Your task to perform on an android device: Search for "usb-c" on walmart.com, select the first entry, add it to the cart, then select checkout. Image 0: 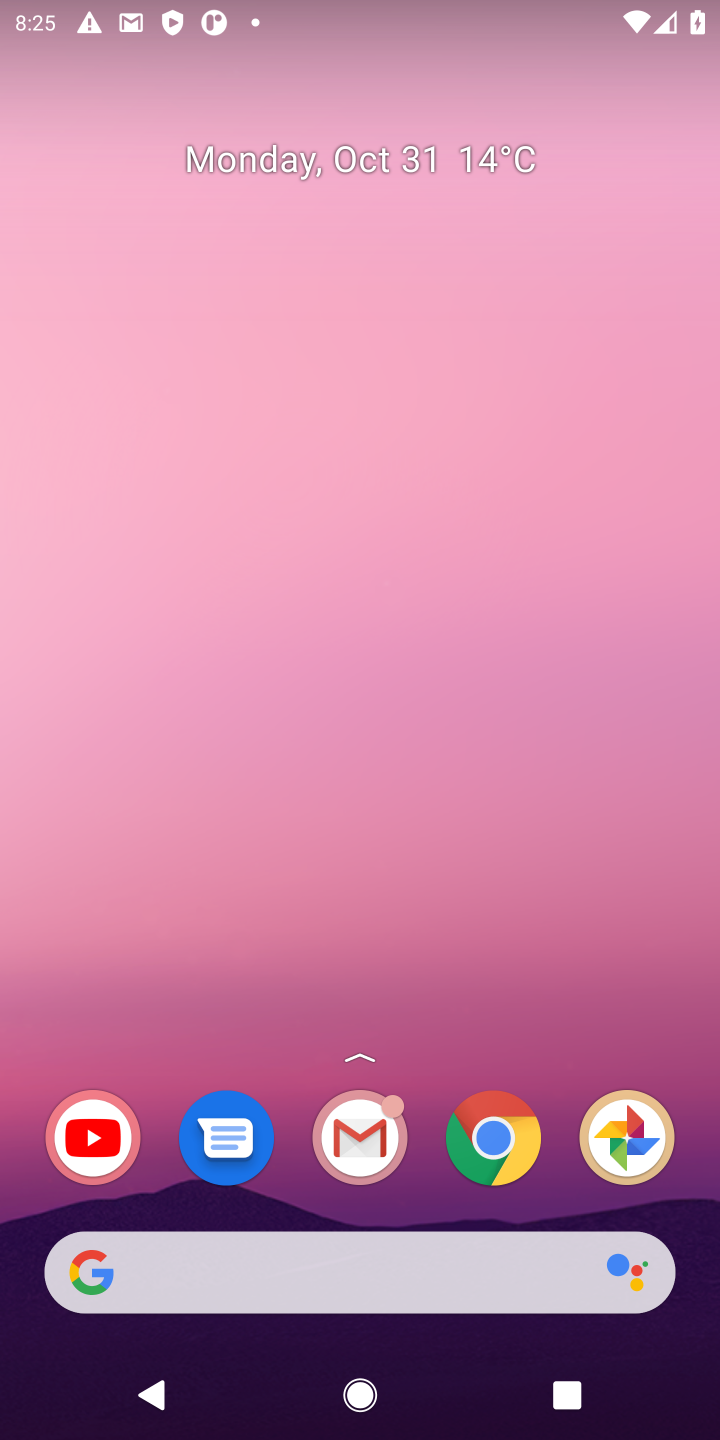
Step 0: press home button
Your task to perform on an android device: Search for "usb-c" on walmart.com, select the first entry, add it to the cart, then select checkout. Image 1: 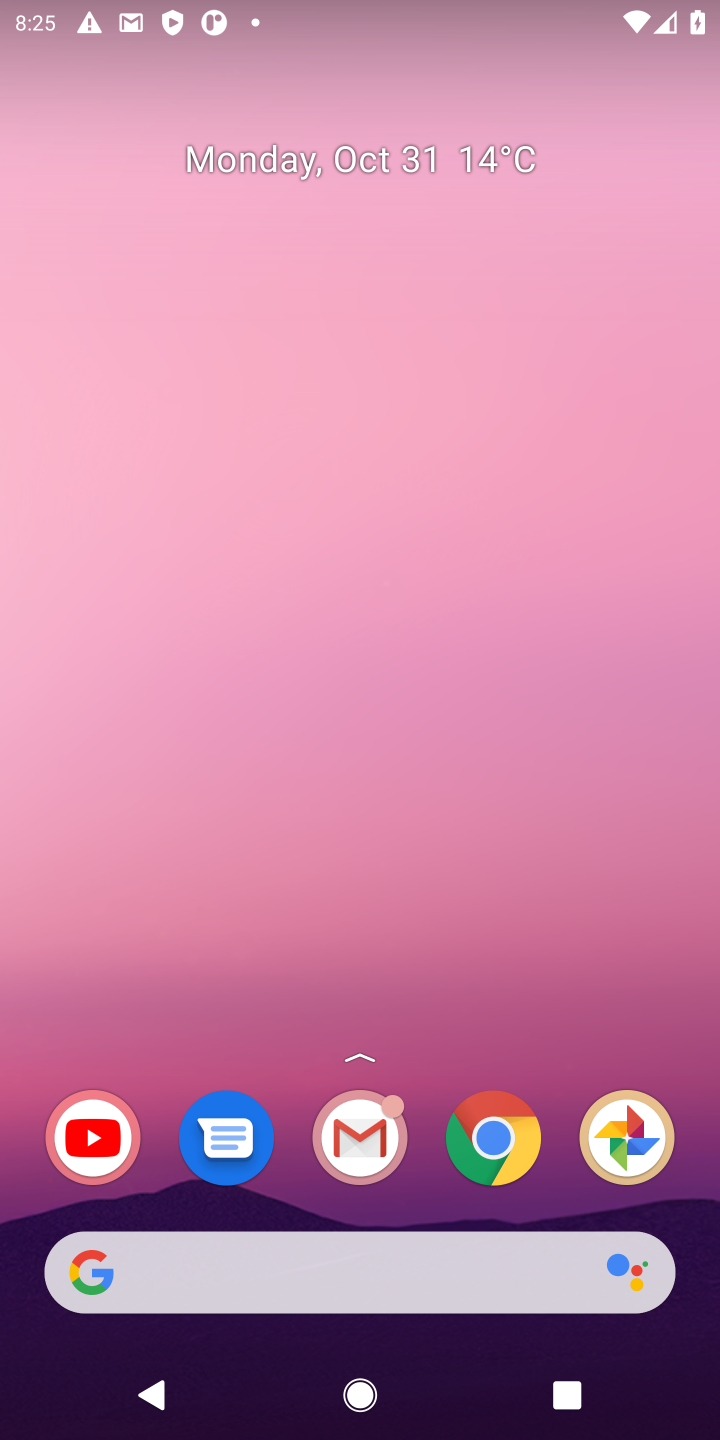
Step 1: click (473, 1096)
Your task to perform on an android device: Search for "usb-c" on walmart.com, select the first entry, add it to the cart, then select checkout. Image 2: 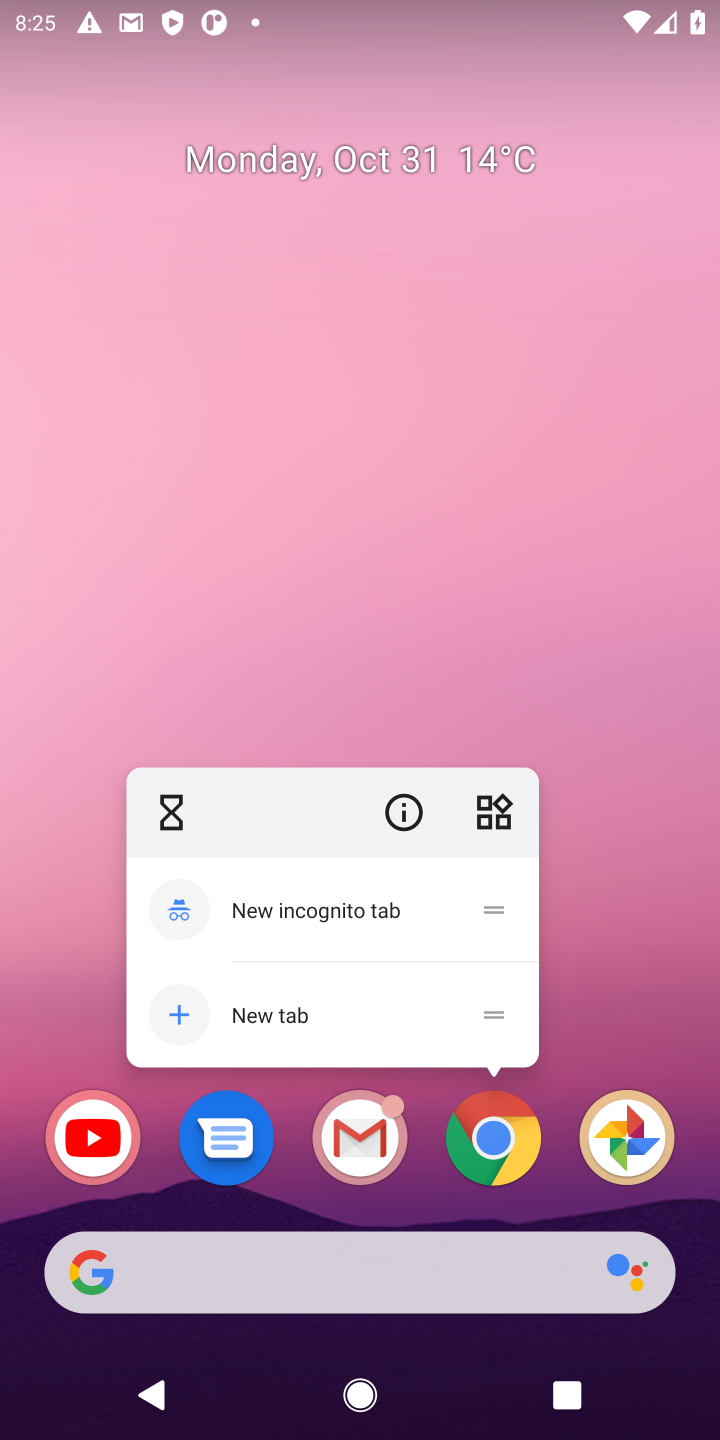
Step 2: click (502, 1129)
Your task to perform on an android device: Search for "usb-c" on walmart.com, select the first entry, add it to the cart, then select checkout. Image 3: 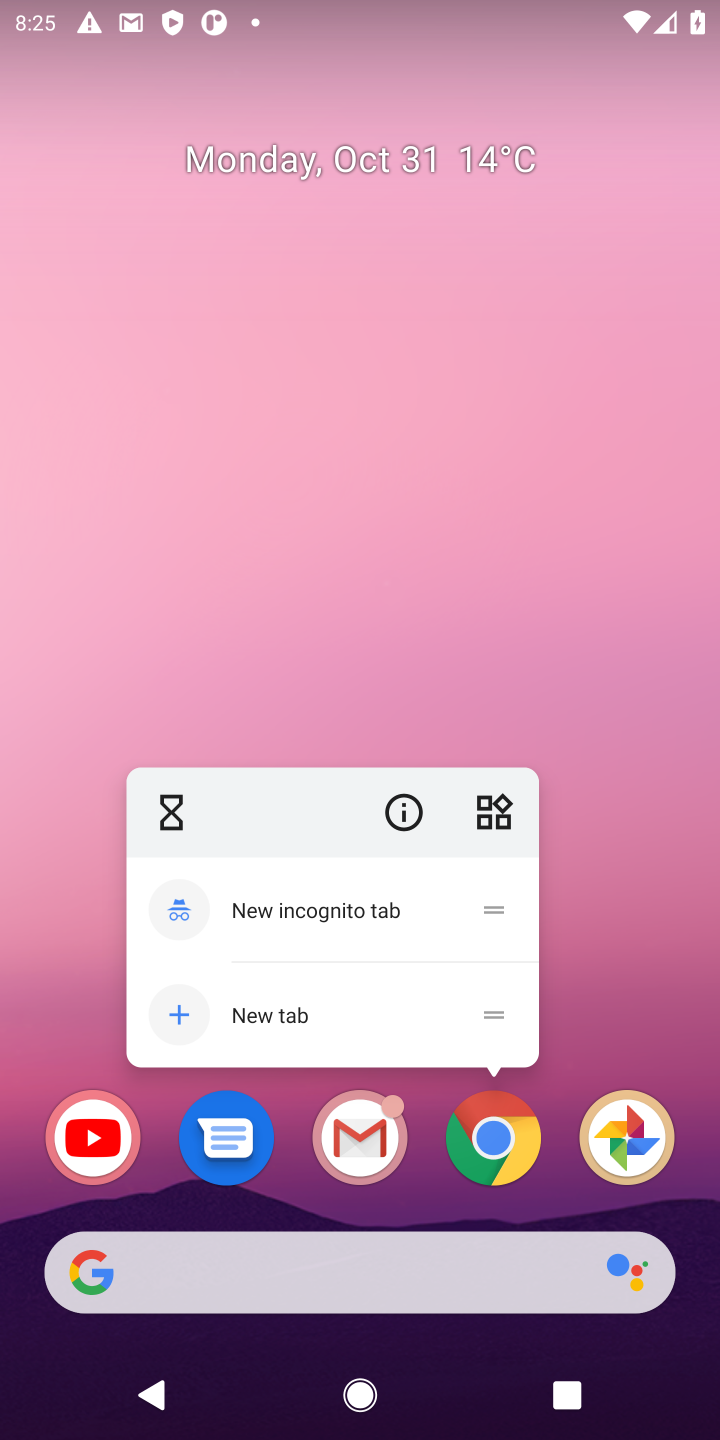
Step 3: click (491, 1170)
Your task to perform on an android device: Search for "usb-c" on walmart.com, select the first entry, add it to the cart, then select checkout. Image 4: 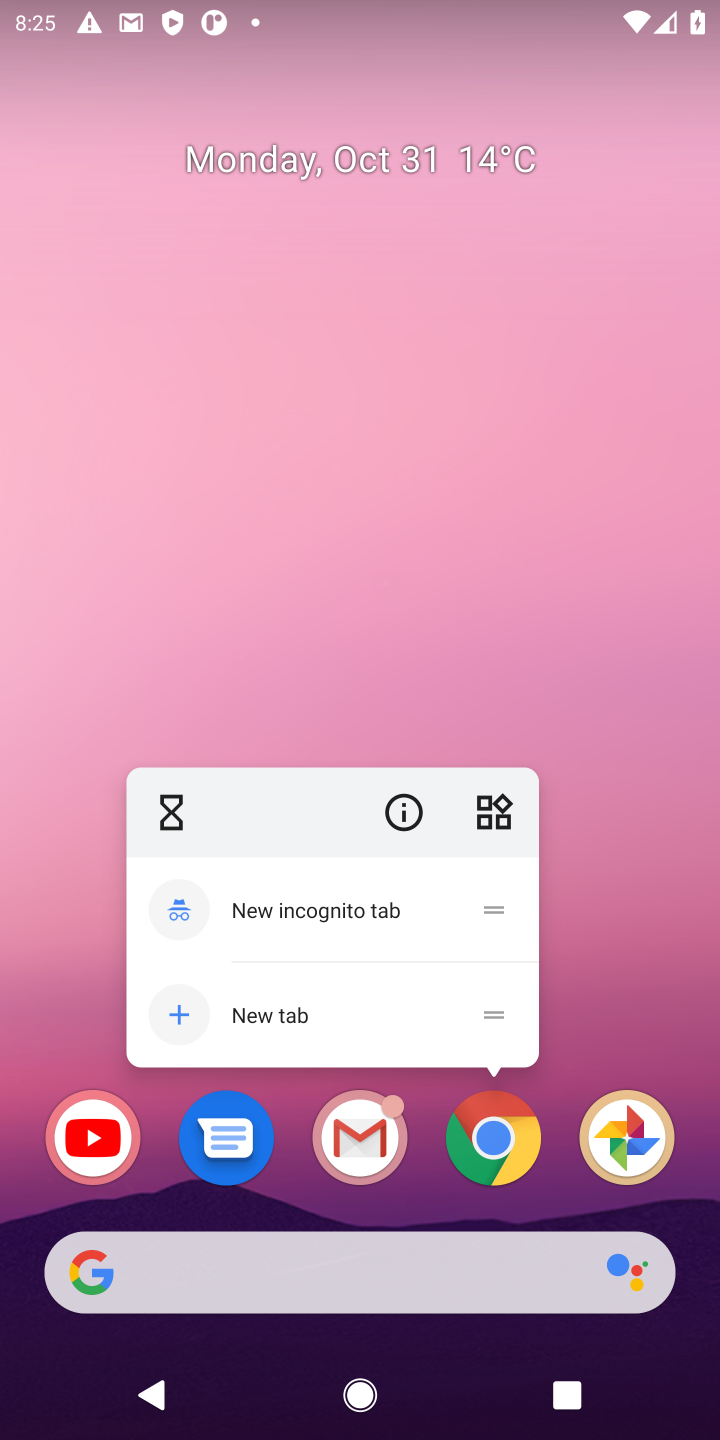
Step 4: click (512, 1139)
Your task to perform on an android device: Search for "usb-c" on walmart.com, select the first entry, add it to the cart, then select checkout. Image 5: 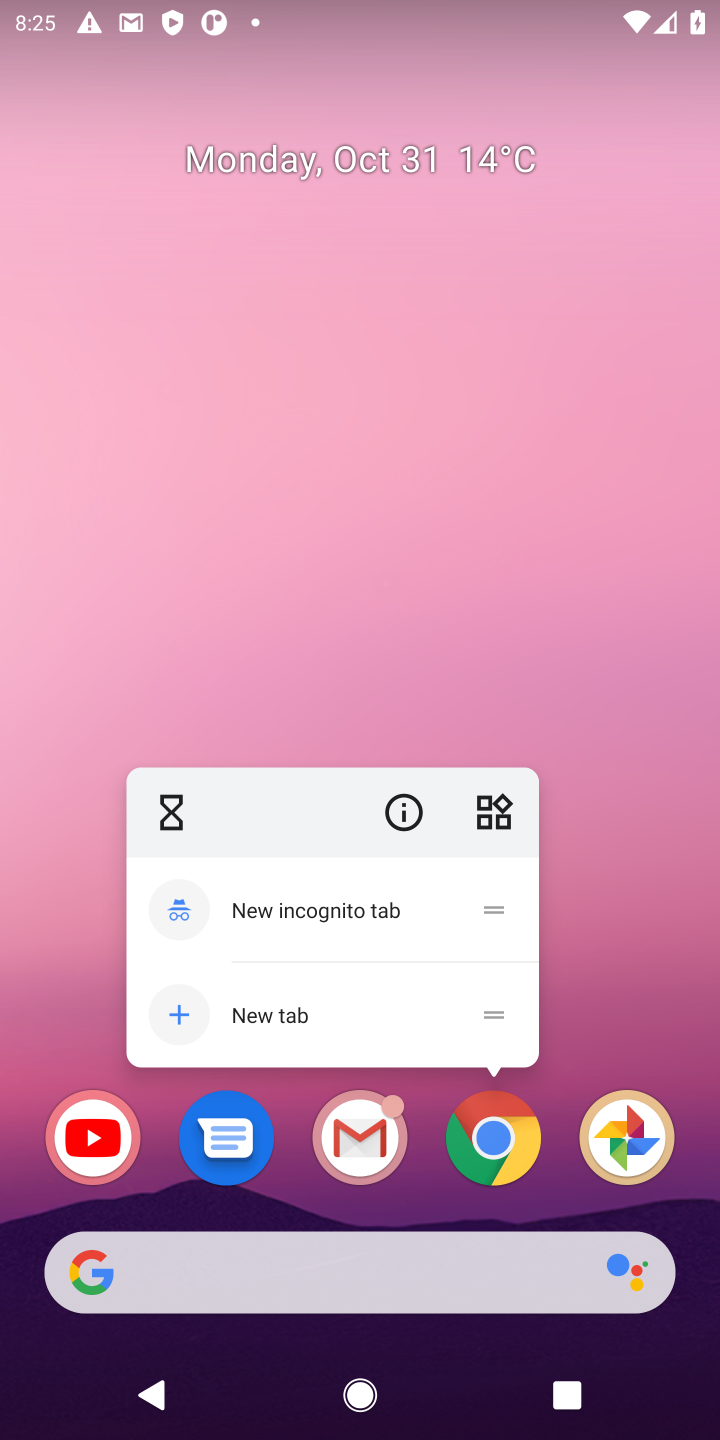
Step 5: click (510, 1135)
Your task to perform on an android device: Search for "usb-c" on walmart.com, select the first entry, add it to the cart, then select checkout. Image 6: 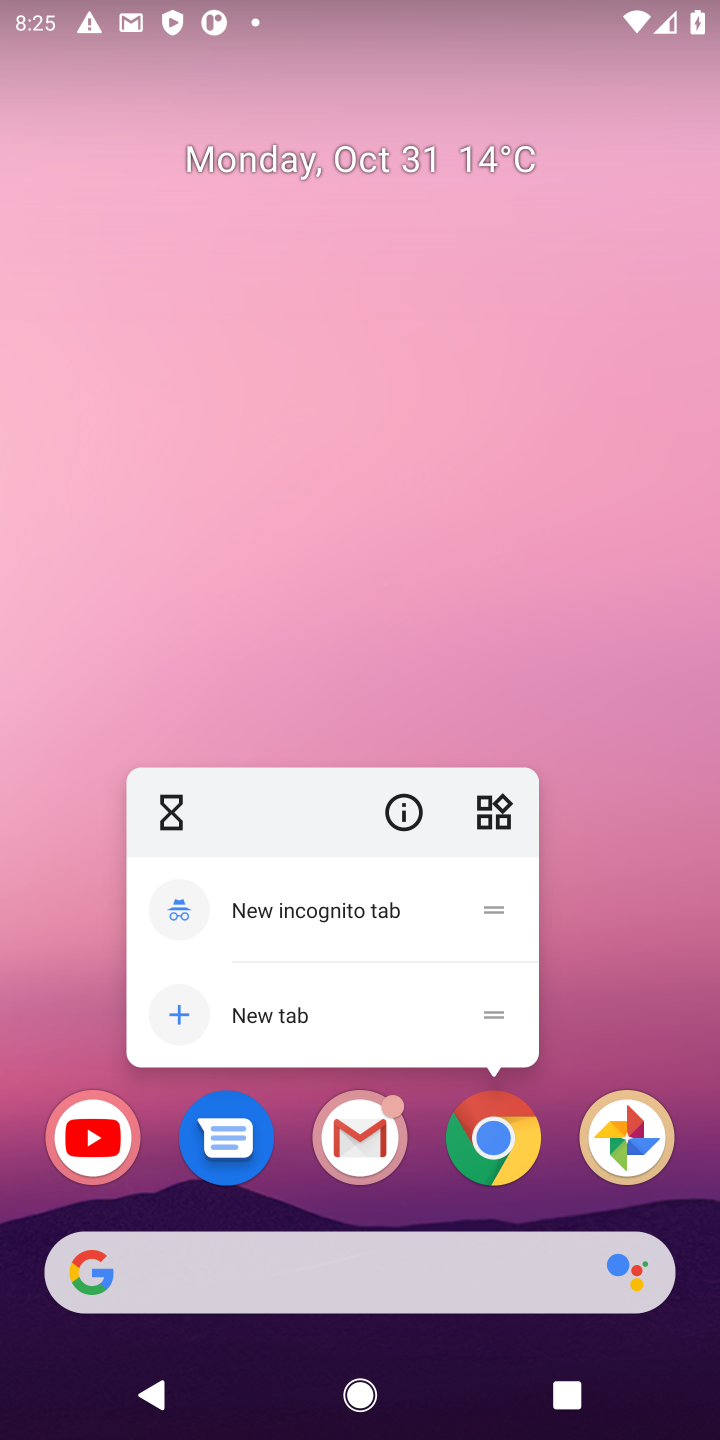
Step 6: click (509, 1130)
Your task to perform on an android device: Search for "usb-c" on walmart.com, select the first entry, add it to the cart, then select checkout. Image 7: 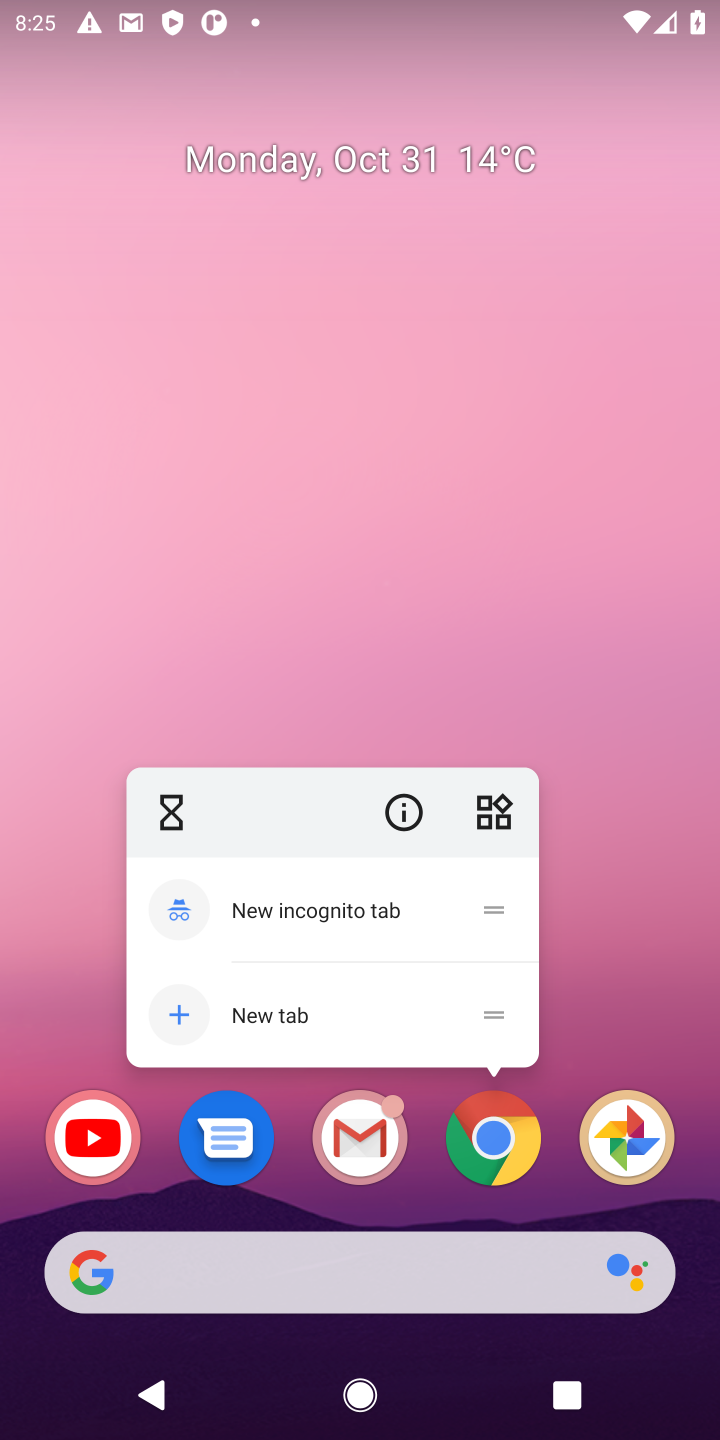
Step 7: press home button
Your task to perform on an android device: Search for "usb-c" on walmart.com, select the first entry, add it to the cart, then select checkout. Image 8: 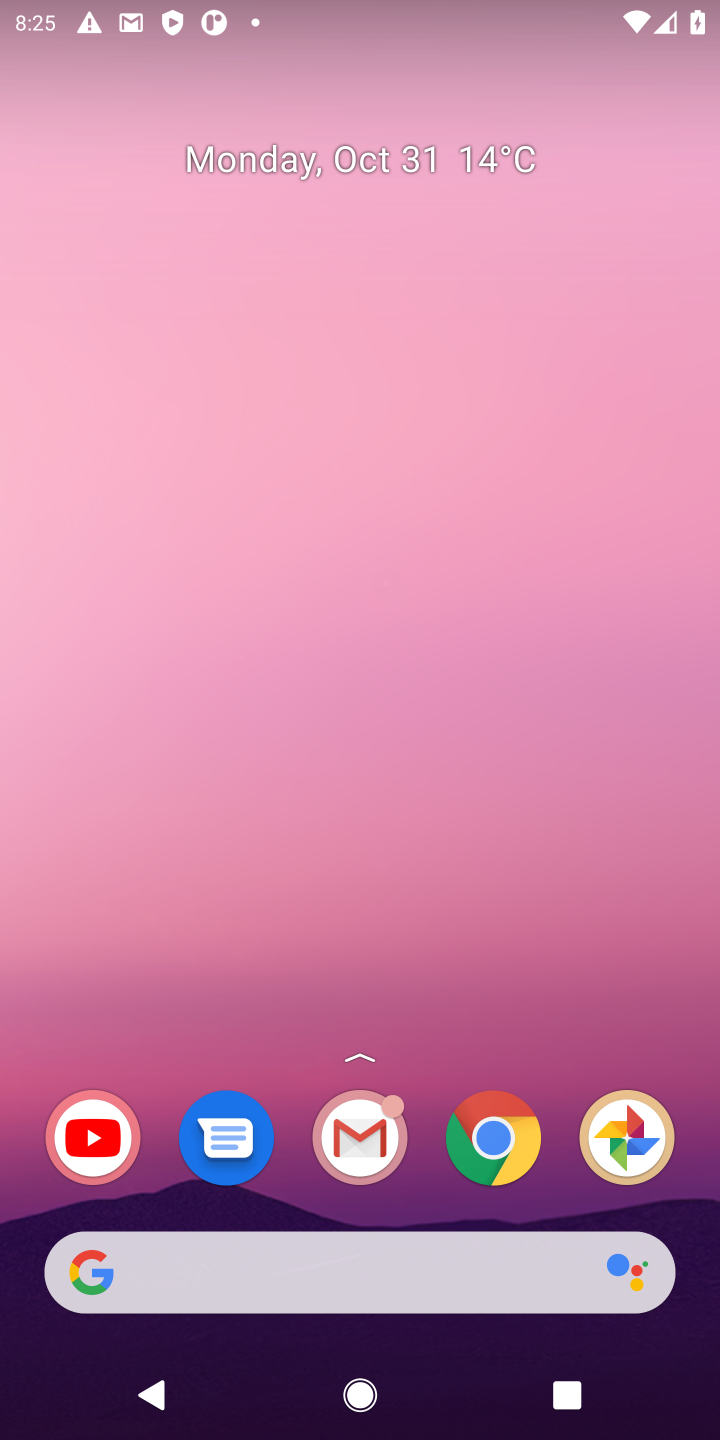
Step 8: press home button
Your task to perform on an android device: Search for "usb-c" on walmart.com, select the first entry, add it to the cart, then select checkout. Image 9: 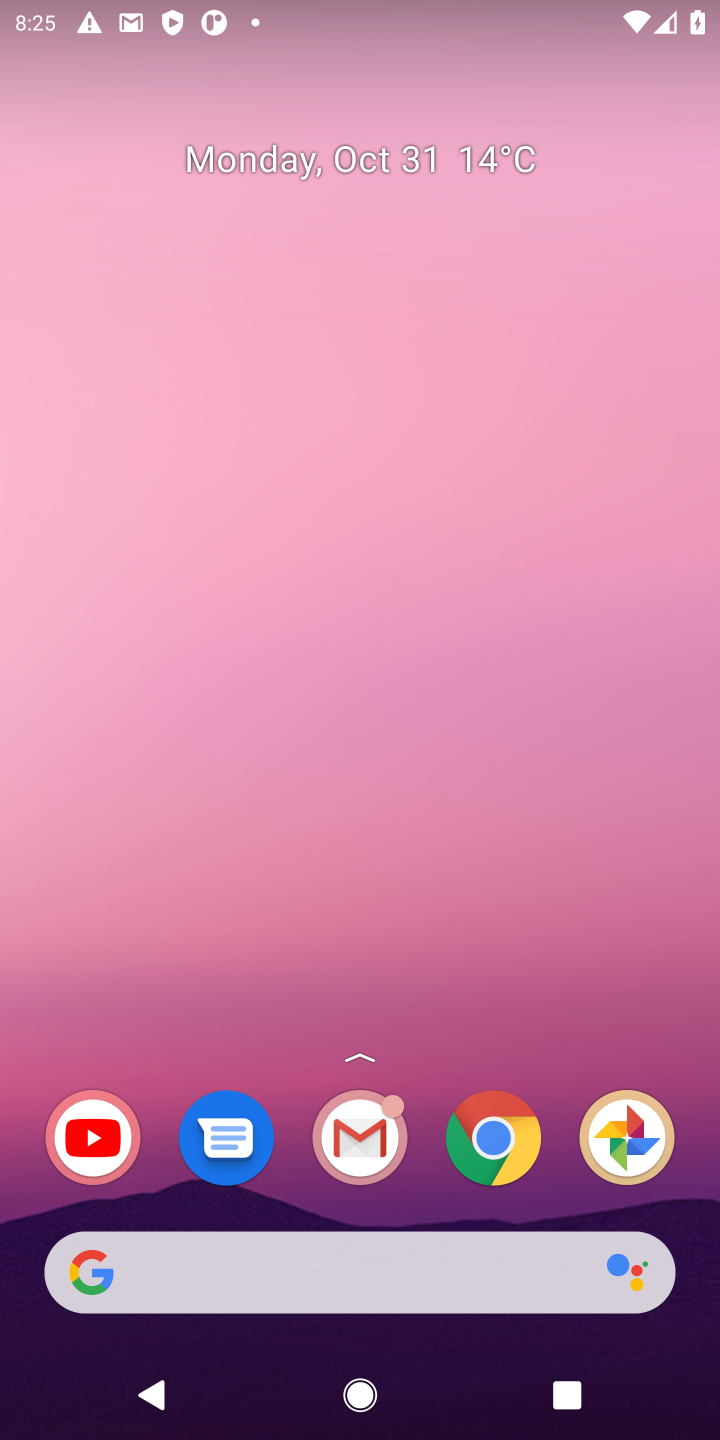
Step 9: press back button
Your task to perform on an android device: Search for "usb-c" on walmart.com, select the first entry, add it to the cart, then select checkout. Image 10: 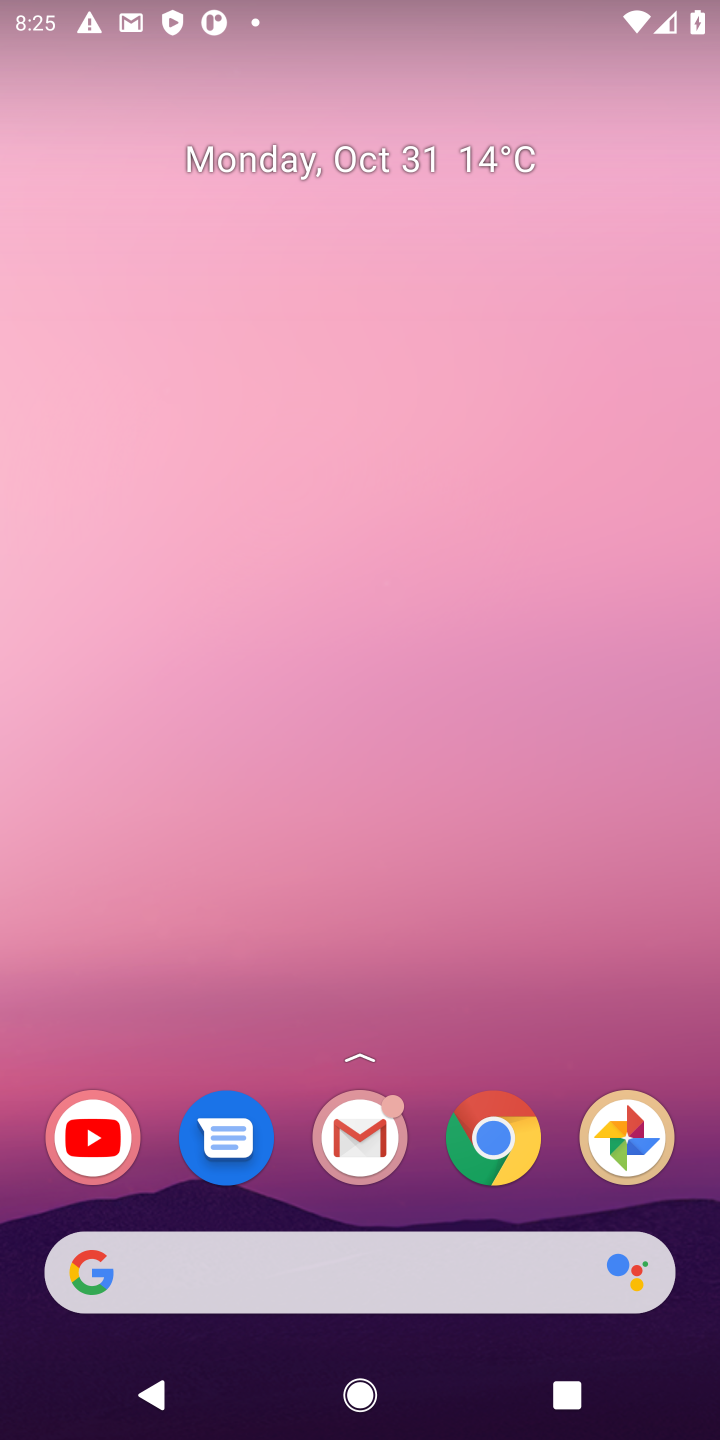
Step 10: press home button
Your task to perform on an android device: Search for "usb-c" on walmart.com, select the first entry, add it to the cart, then select checkout. Image 11: 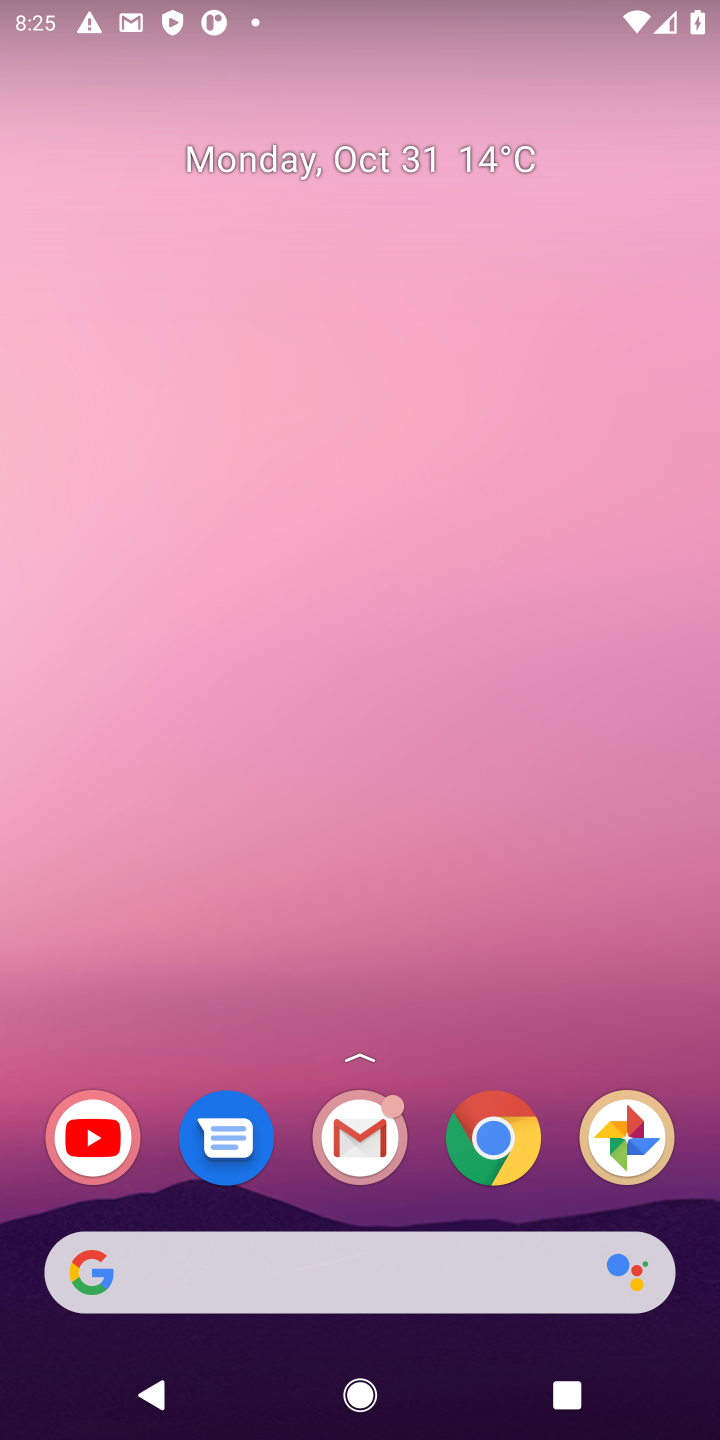
Step 11: click (494, 1128)
Your task to perform on an android device: Search for "usb-c" on walmart.com, select the first entry, add it to the cart, then select checkout. Image 12: 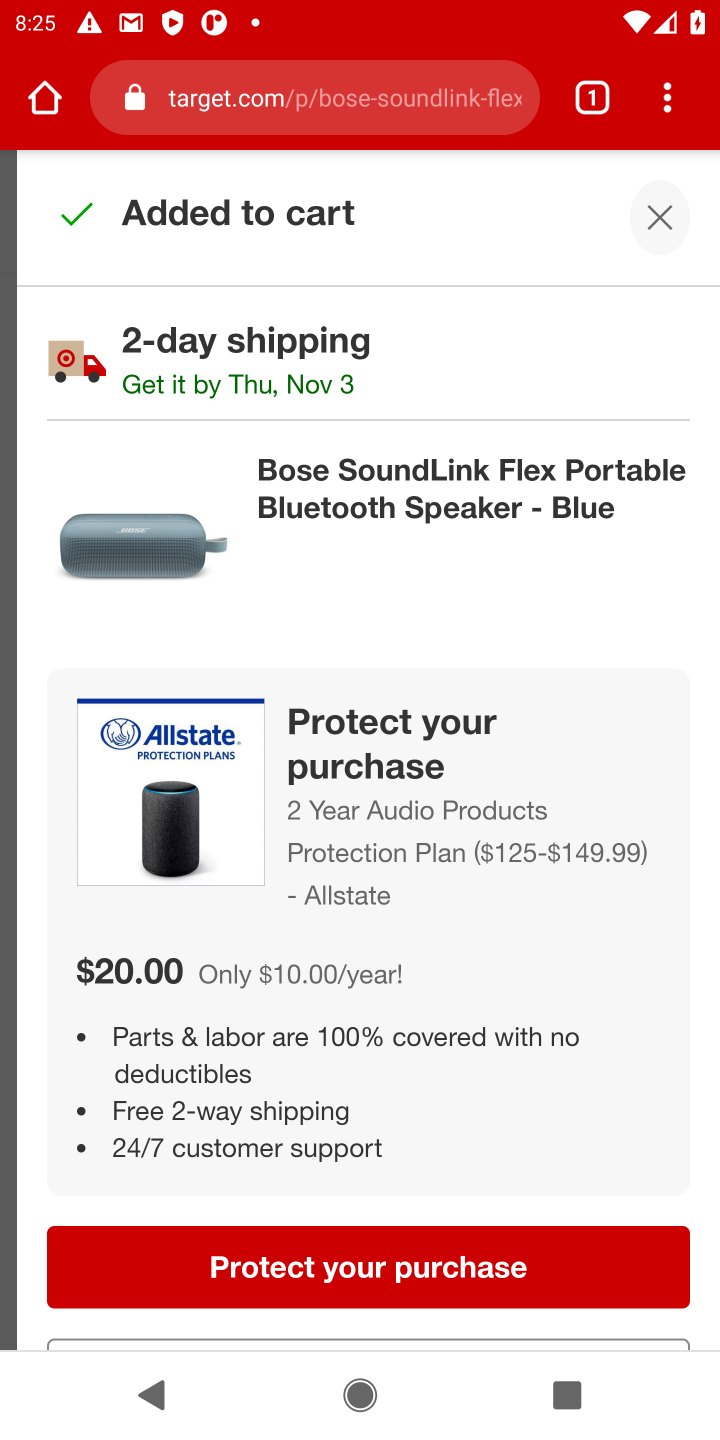
Step 12: click (255, 104)
Your task to perform on an android device: Search for "usb-c" on walmart.com, select the first entry, add it to the cart, then select checkout. Image 13: 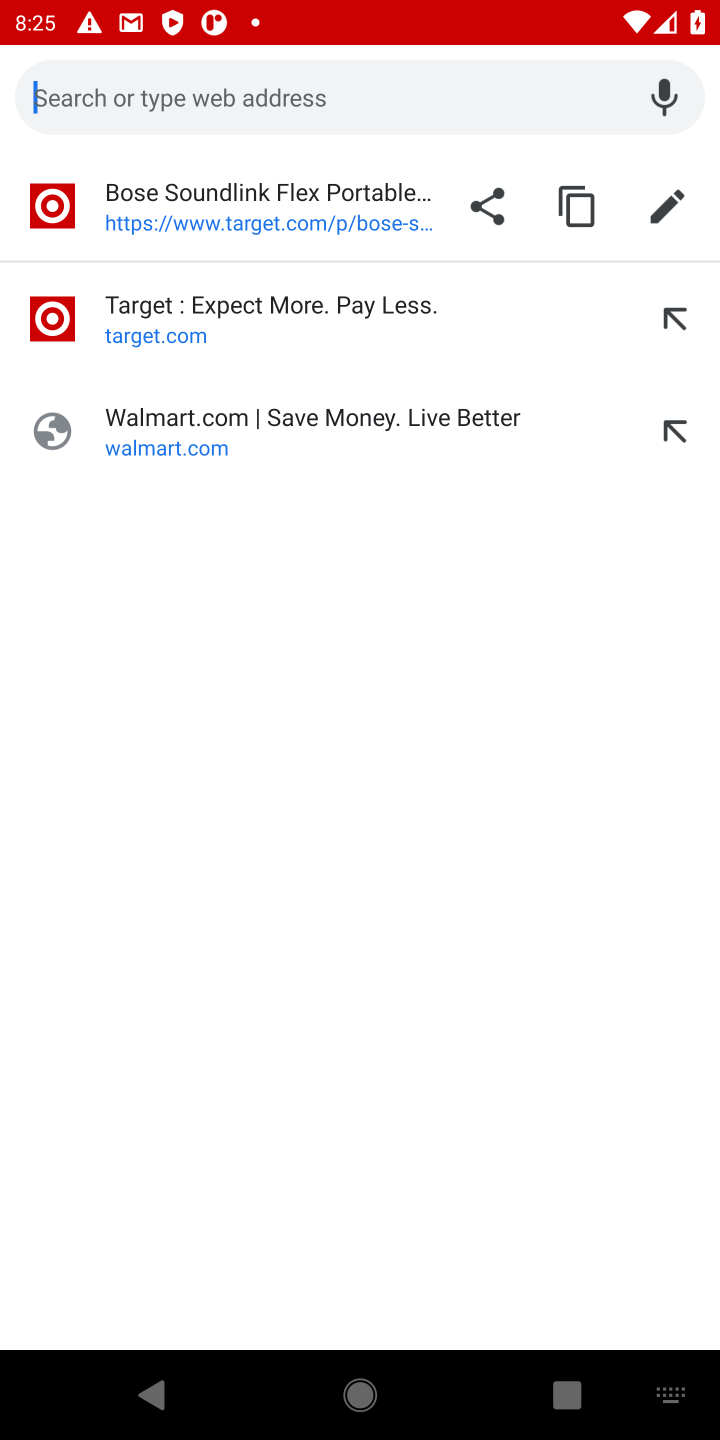
Step 13: type "walmart.com"
Your task to perform on an android device: Search for "usb-c" on walmart.com, select the first entry, add it to the cart, then select checkout. Image 14: 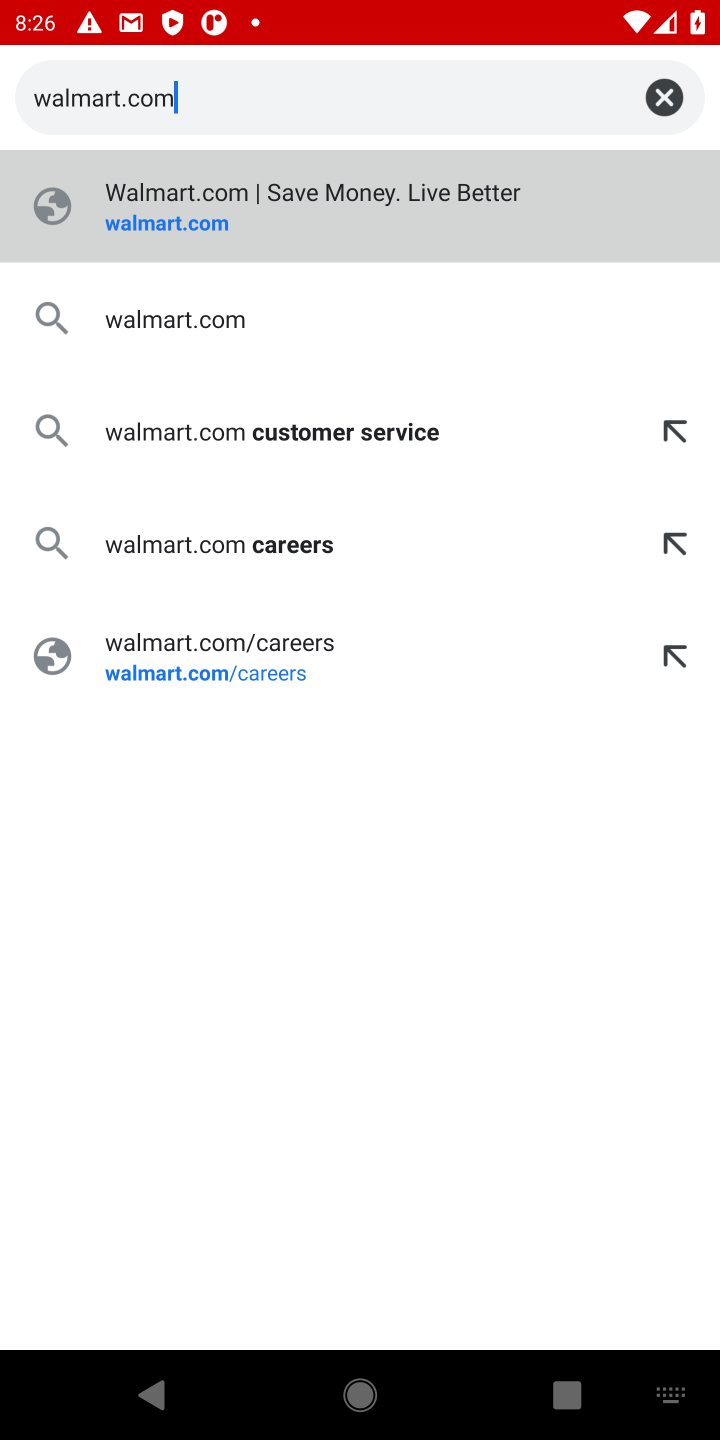
Step 14: click (197, 327)
Your task to perform on an android device: Search for "usb-c" on walmart.com, select the first entry, add it to the cart, then select checkout. Image 15: 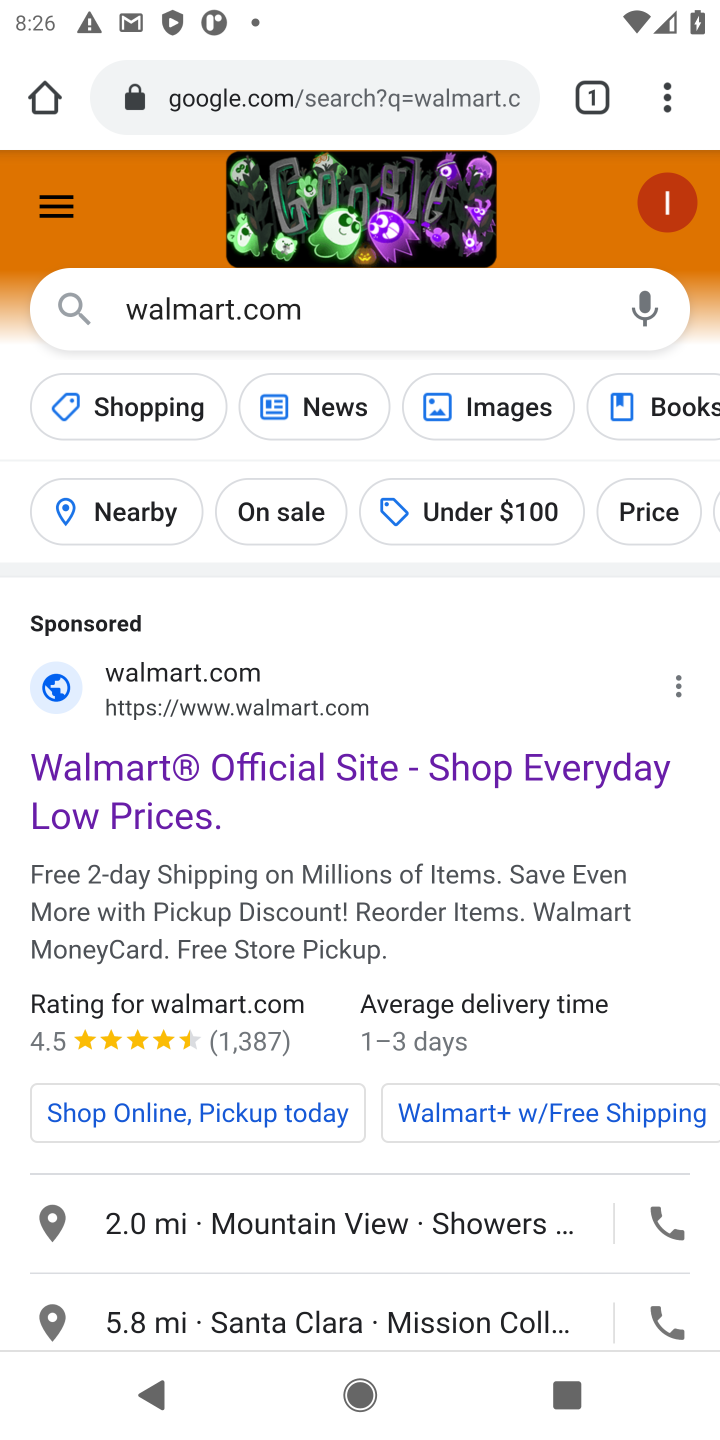
Step 15: drag from (169, 928) to (227, 683)
Your task to perform on an android device: Search for "usb-c" on walmart.com, select the first entry, add it to the cart, then select checkout. Image 16: 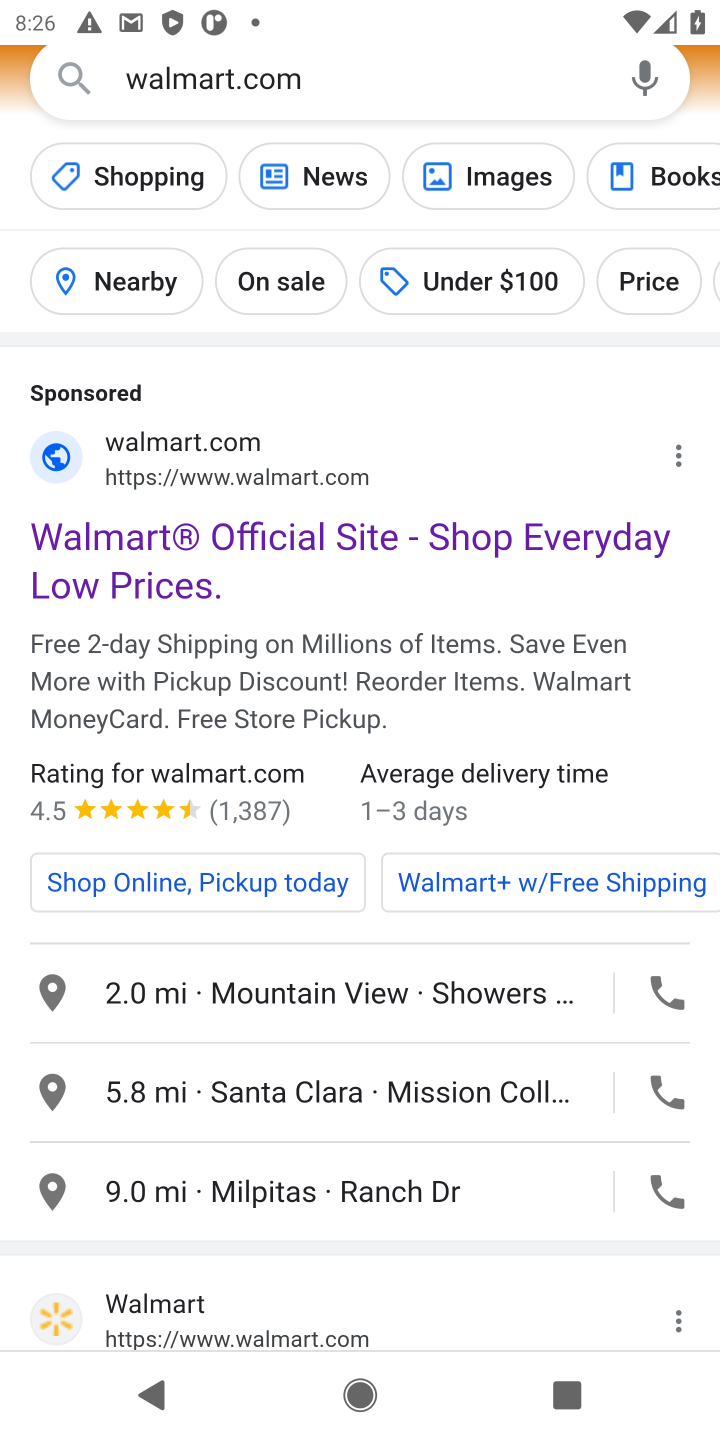
Step 16: click (297, 533)
Your task to perform on an android device: Search for "usb-c" on walmart.com, select the first entry, add it to the cart, then select checkout. Image 17: 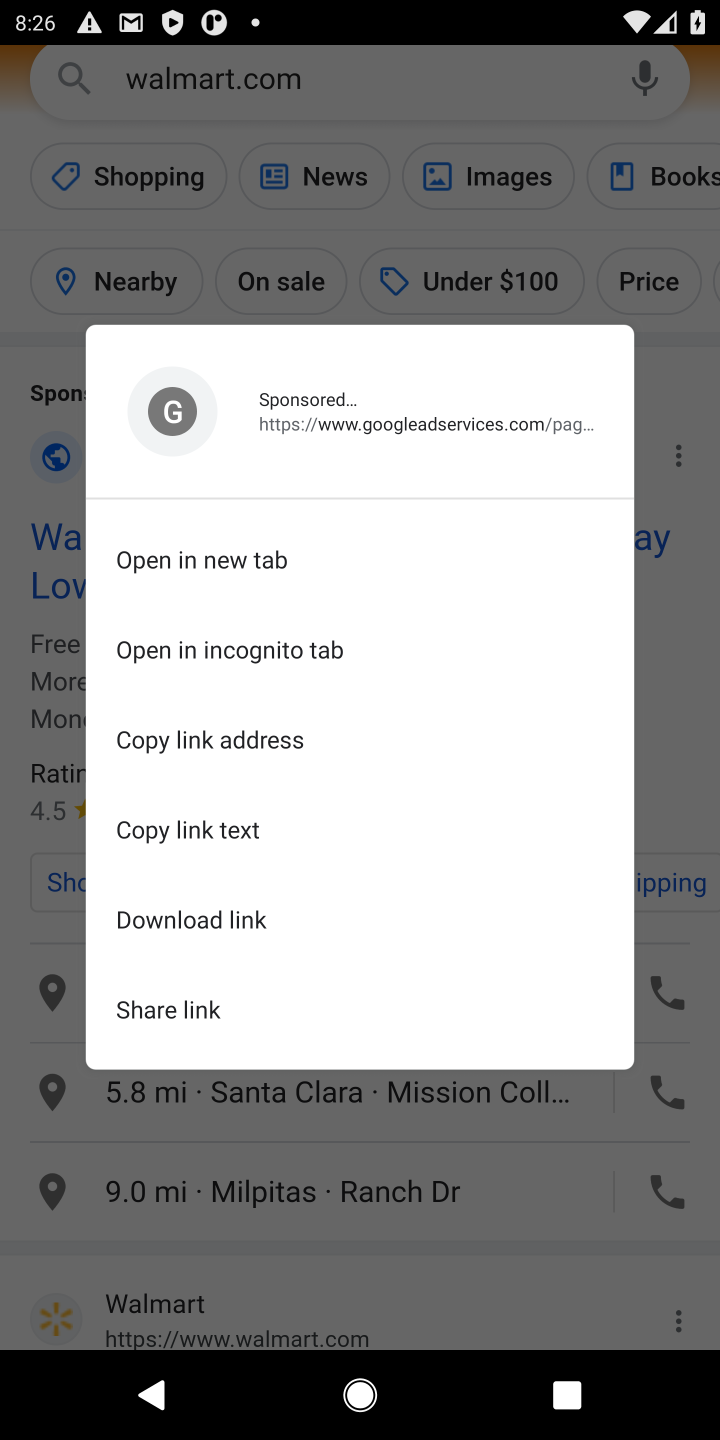
Step 17: drag from (29, 941) to (45, 547)
Your task to perform on an android device: Search for "usb-c" on walmart.com, select the first entry, add it to the cart, then select checkout. Image 18: 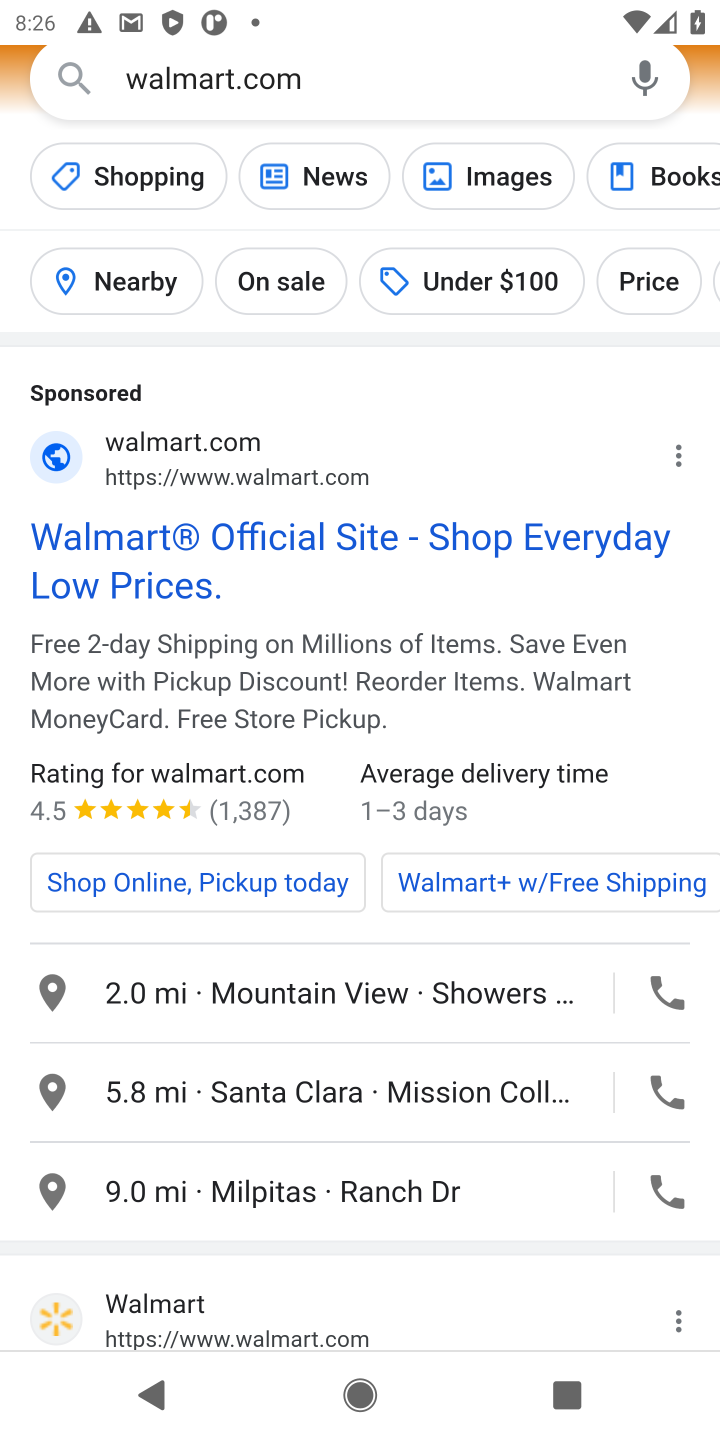
Step 18: drag from (111, 971) to (212, 393)
Your task to perform on an android device: Search for "usb-c" on walmart.com, select the first entry, add it to the cart, then select checkout. Image 19: 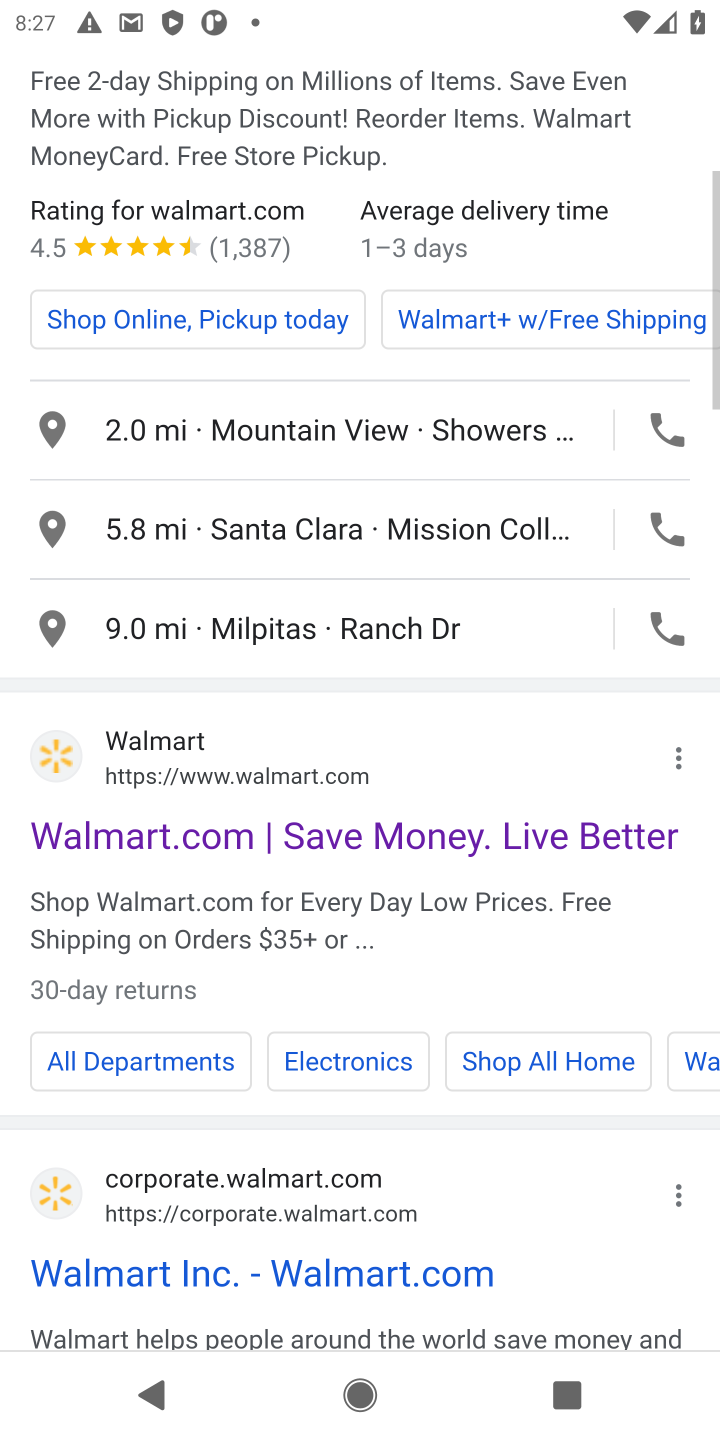
Step 19: drag from (171, 1131) to (201, 612)
Your task to perform on an android device: Search for "usb-c" on walmart.com, select the first entry, add it to the cart, then select checkout. Image 20: 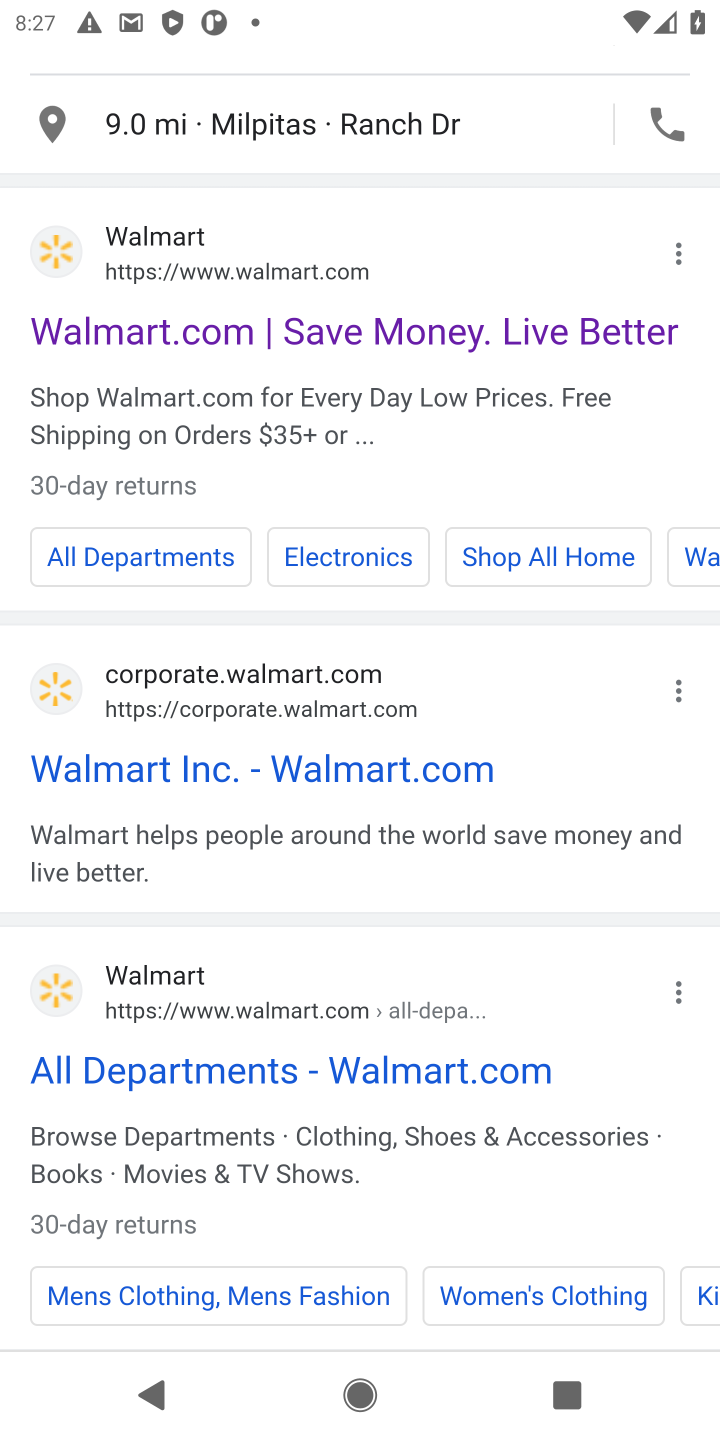
Step 20: click (134, 341)
Your task to perform on an android device: Search for "usb-c" on walmart.com, select the first entry, add it to the cart, then select checkout. Image 21: 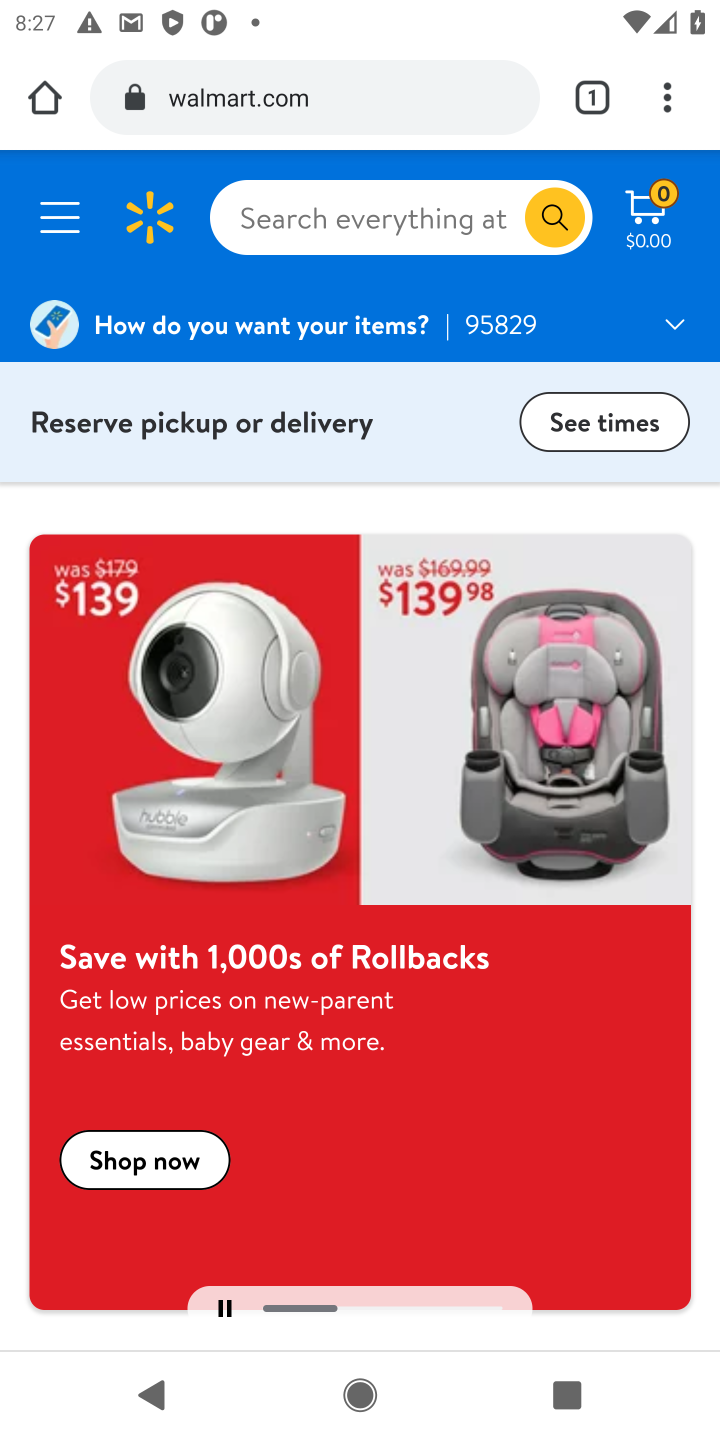
Step 21: click (298, 223)
Your task to perform on an android device: Search for "usb-c" on walmart.com, select the first entry, add it to the cart, then select checkout. Image 22: 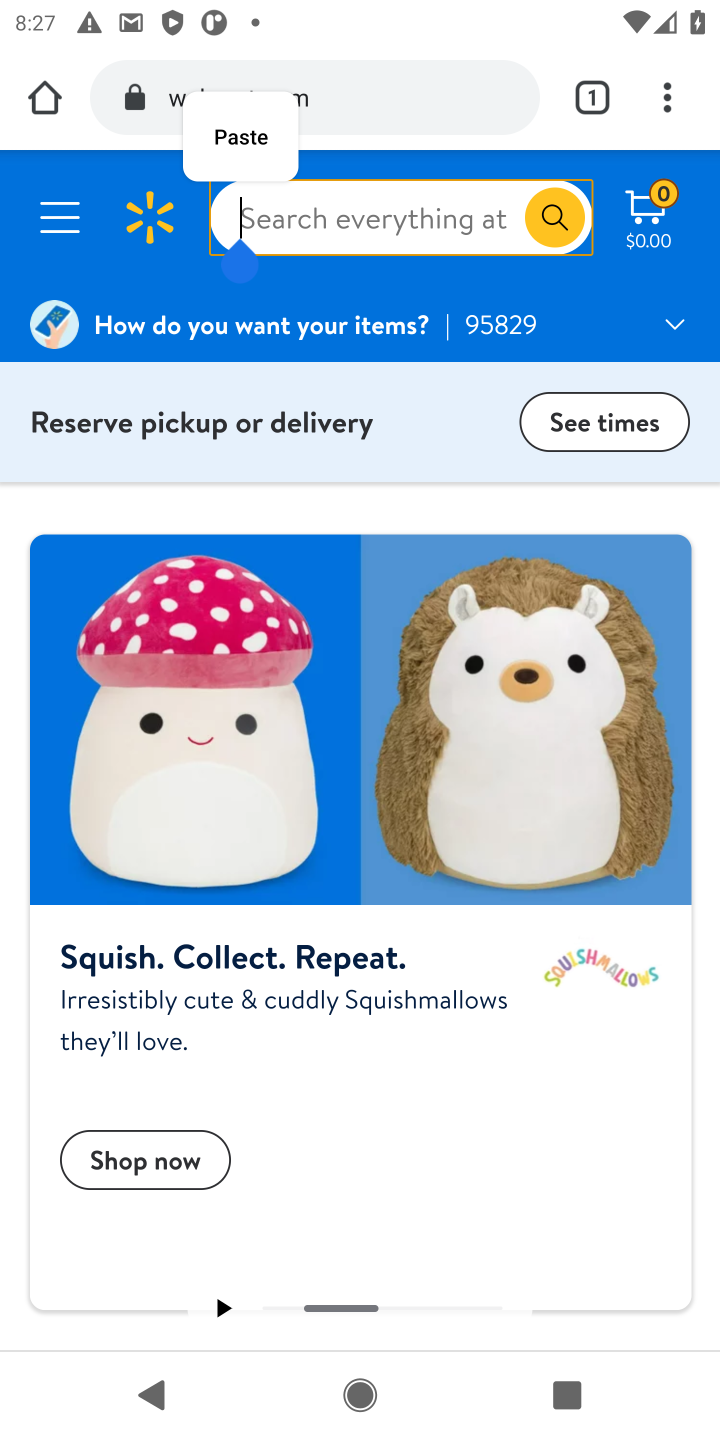
Step 22: type "usb-c"
Your task to perform on an android device: Search for "usb-c" on walmart.com, select the first entry, add it to the cart, then select checkout. Image 23: 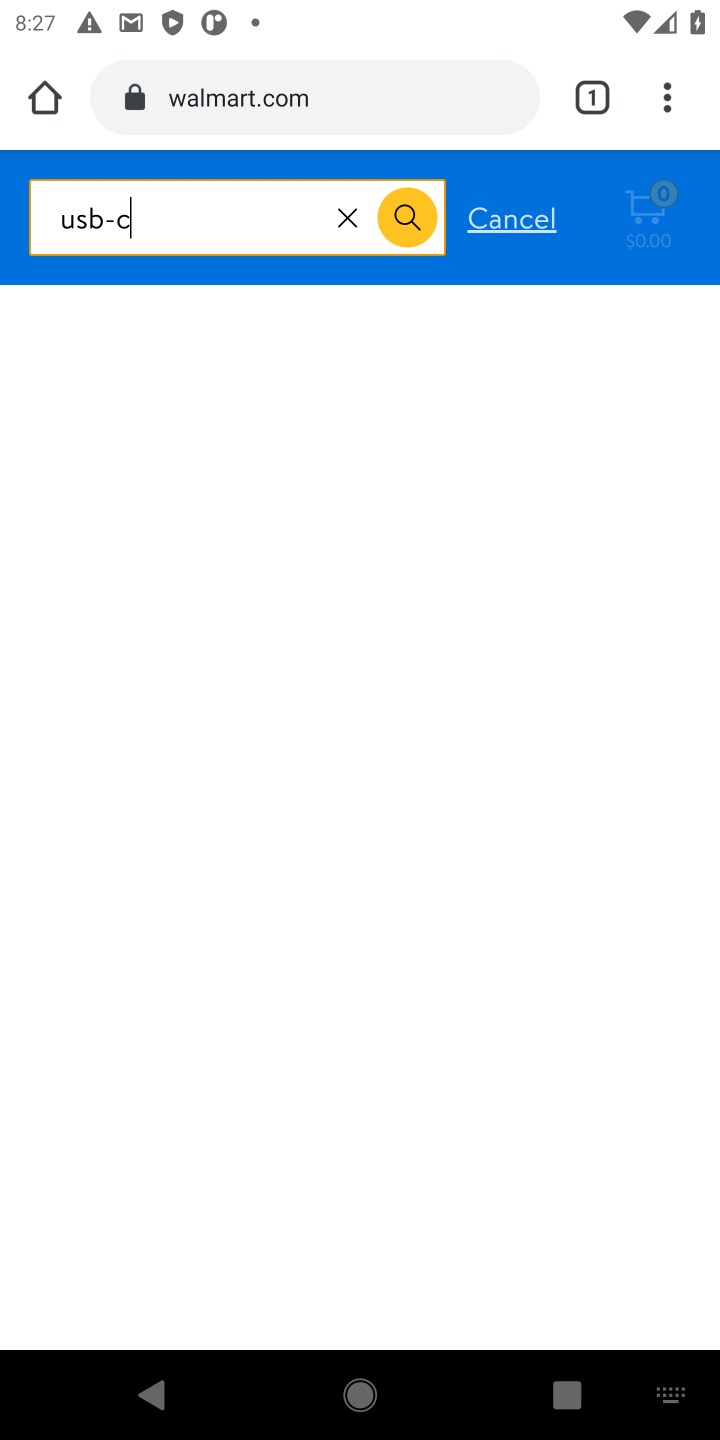
Step 23: type ""
Your task to perform on an android device: Search for "usb-c" on walmart.com, select the first entry, add it to the cart, then select checkout. Image 24: 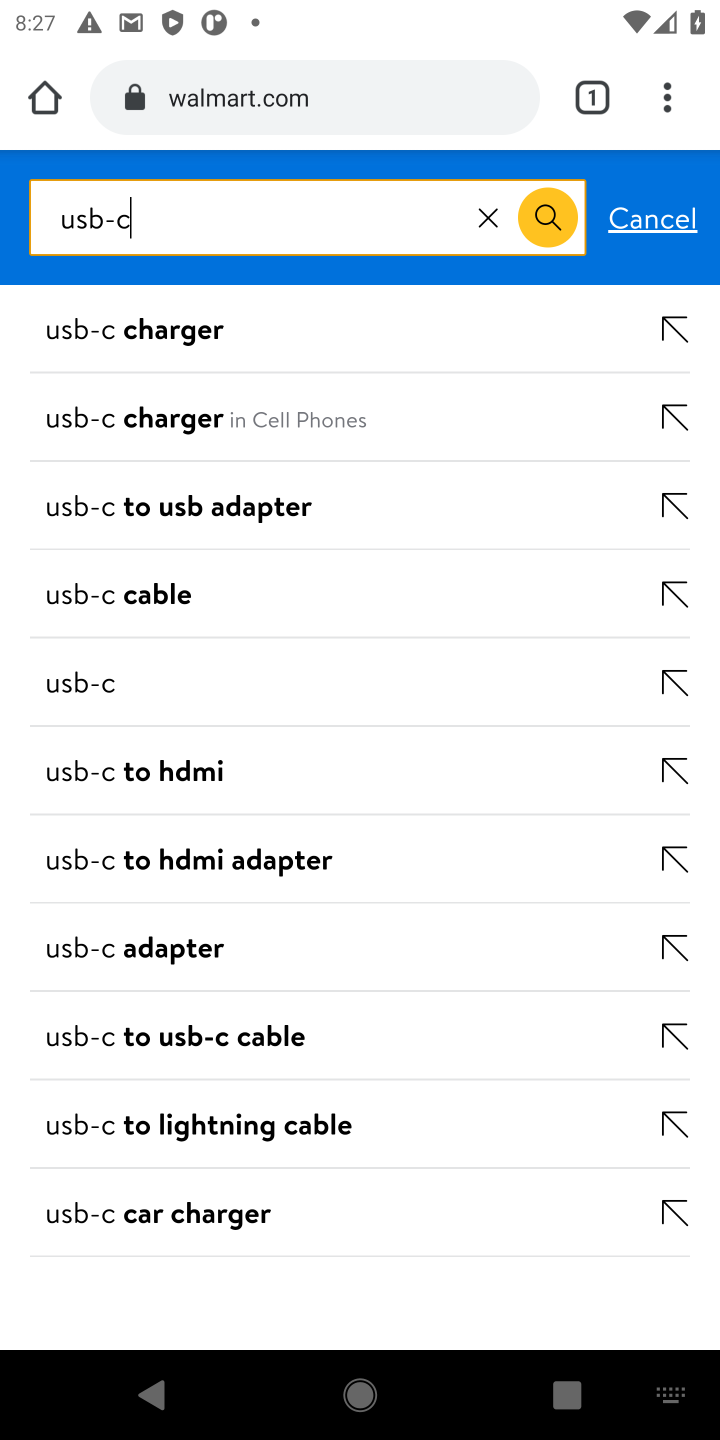
Step 24: click (67, 702)
Your task to perform on an android device: Search for "usb-c" on walmart.com, select the first entry, add it to the cart, then select checkout. Image 25: 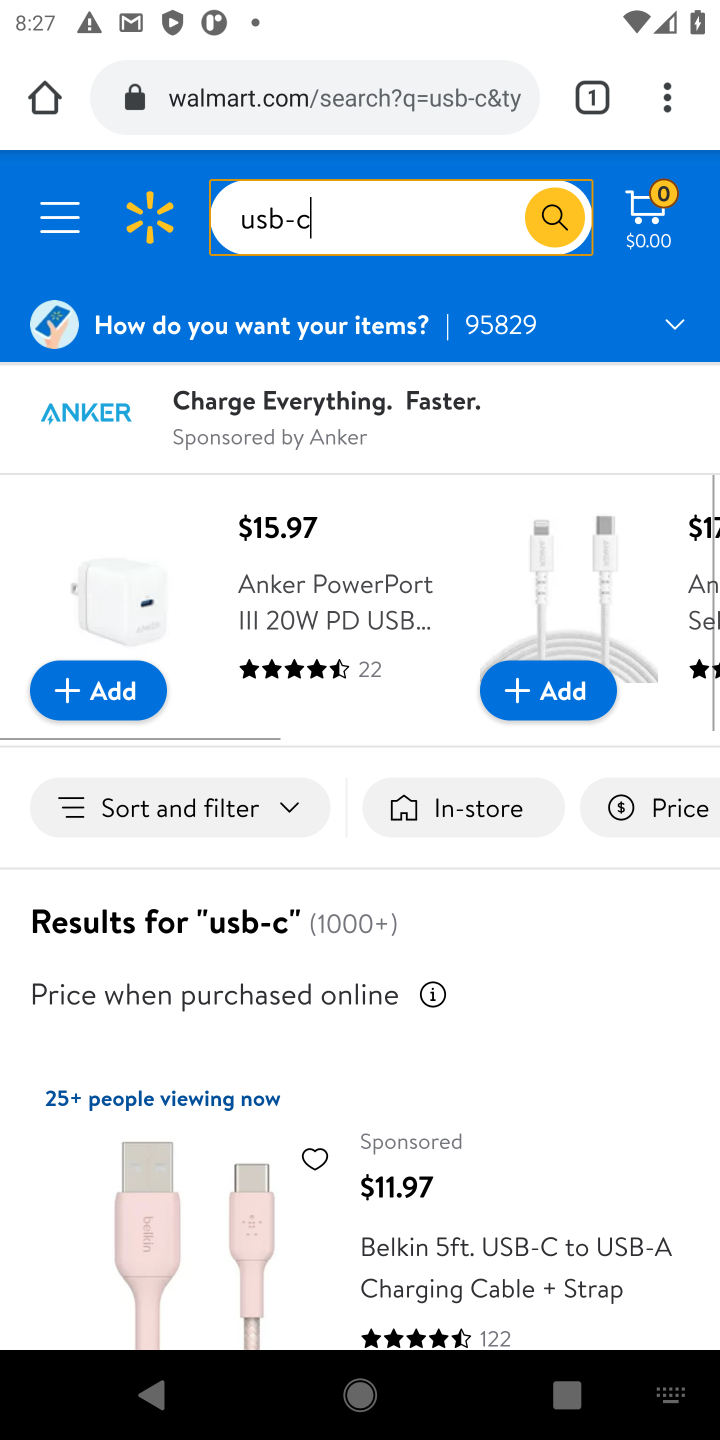
Step 25: drag from (271, 1220) to (322, 708)
Your task to perform on an android device: Search for "usb-c" on walmart.com, select the first entry, add it to the cart, then select checkout. Image 26: 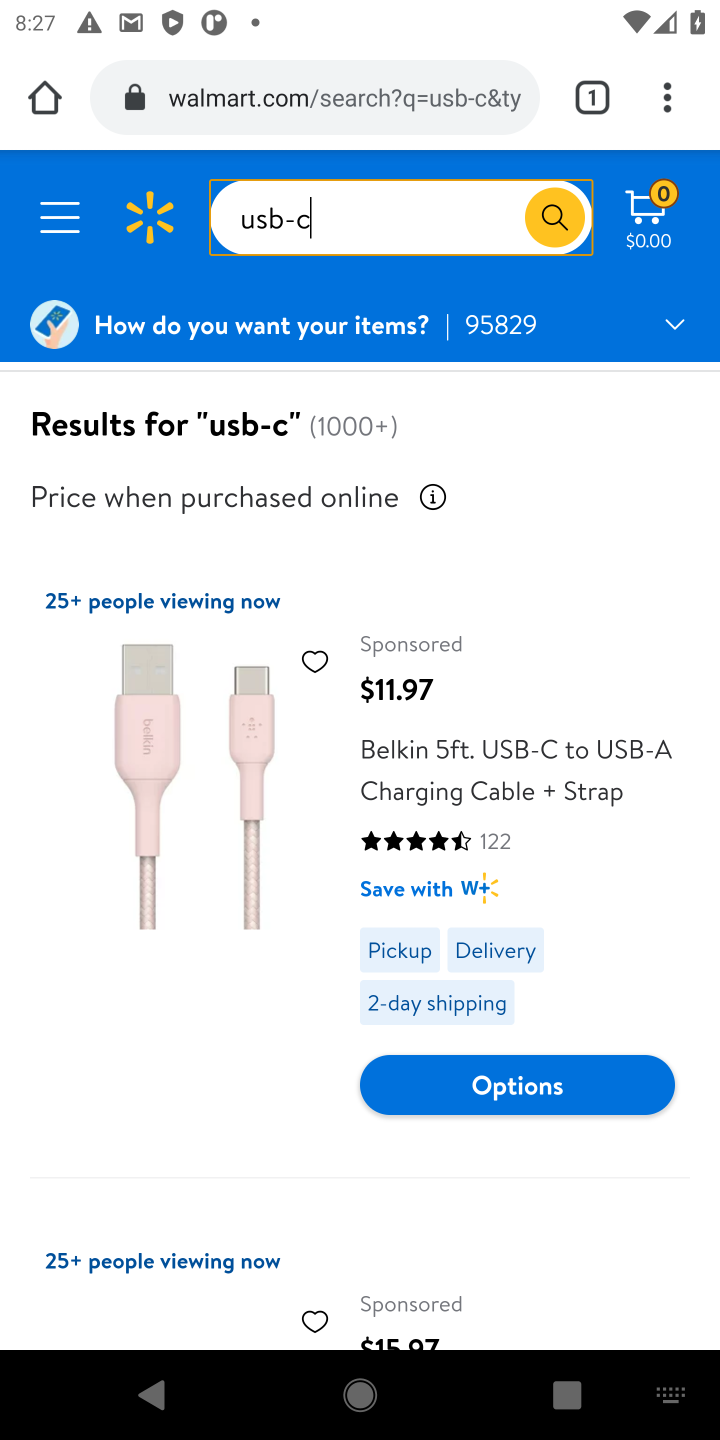
Step 26: click (360, 888)
Your task to perform on an android device: Search for "usb-c" on walmart.com, select the first entry, add it to the cart, then select checkout. Image 27: 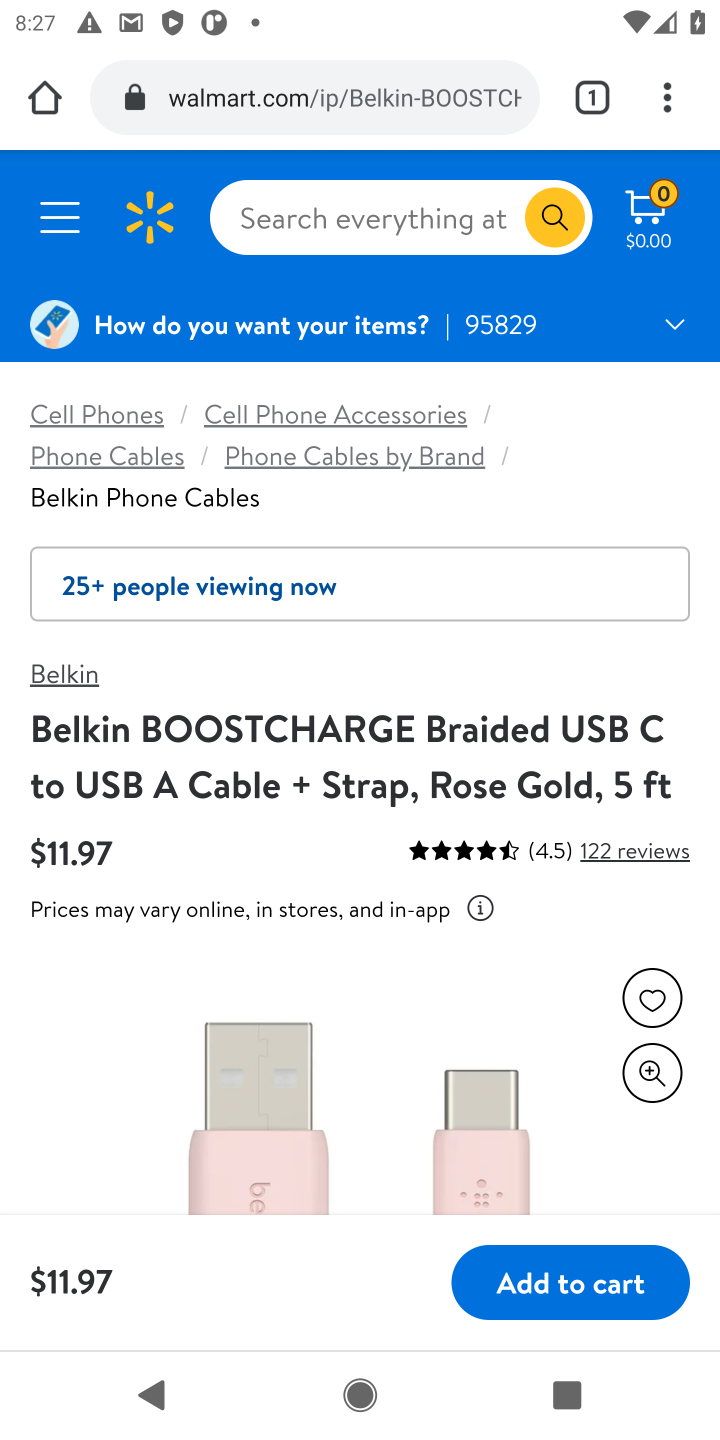
Step 27: drag from (283, 904) to (329, 378)
Your task to perform on an android device: Search for "usb-c" on walmart.com, select the first entry, add it to the cart, then select checkout. Image 28: 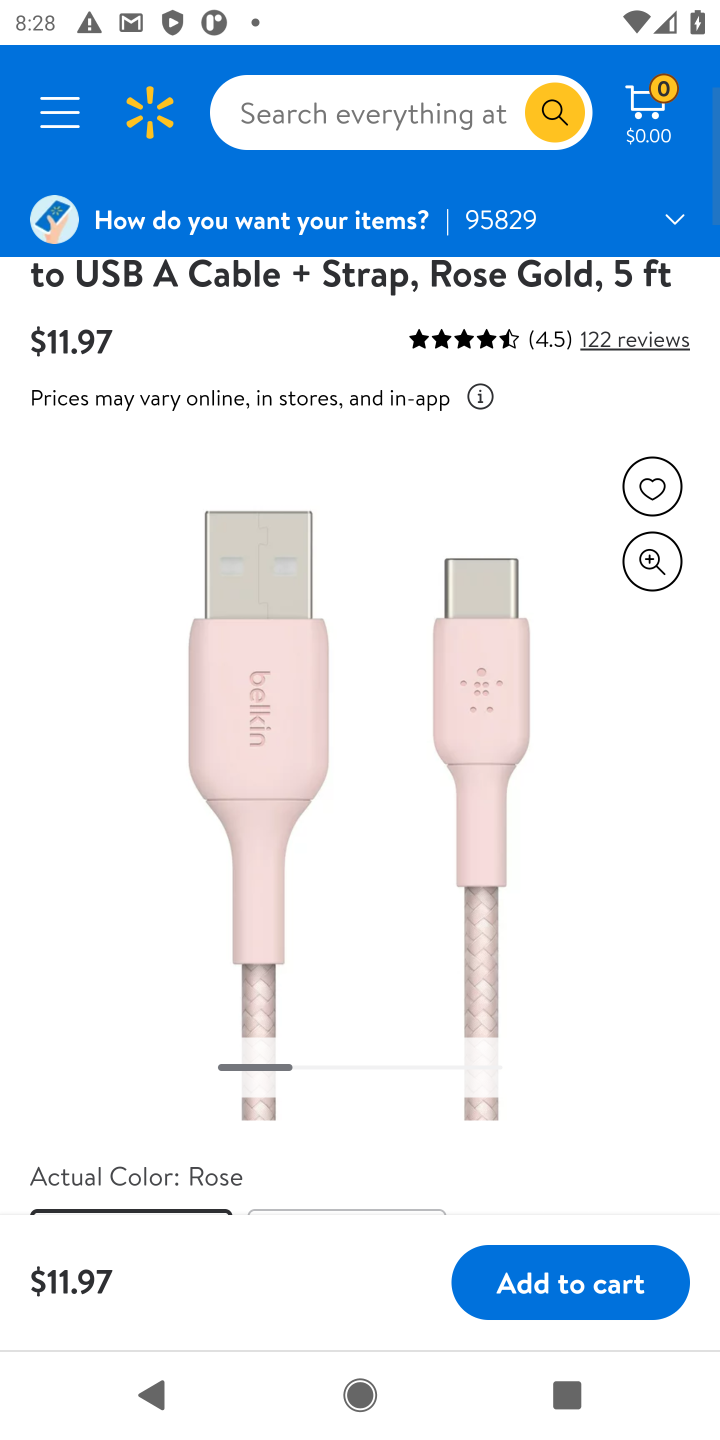
Step 28: drag from (378, 1044) to (372, 718)
Your task to perform on an android device: Search for "usb-c" on walmart.com, select the first entry, add it to the cart, then select checkout. Image 29: 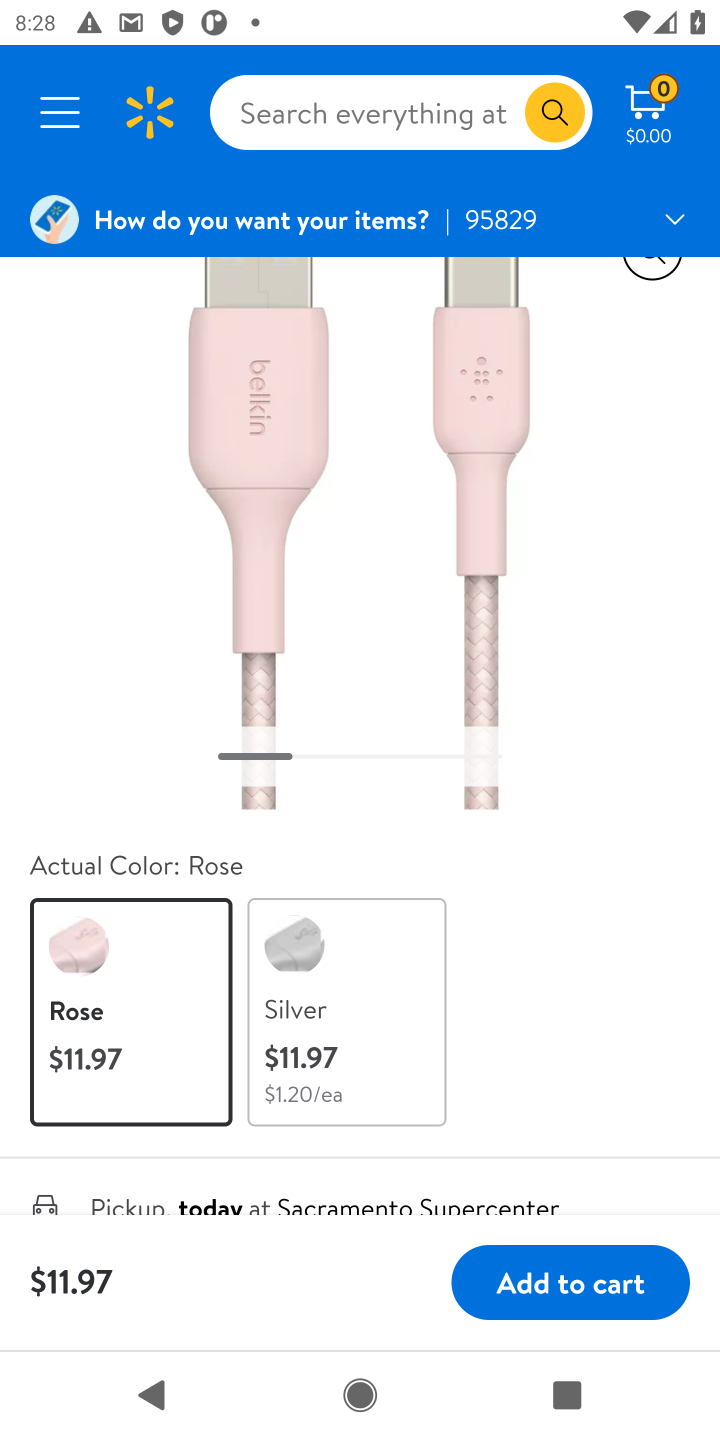
Step 29: click (584, 1275)
Your task to perform on an android device: Search for "usb-c" on walmart.com, select the first entry, add it to the cart, then select checkout. Image 30: 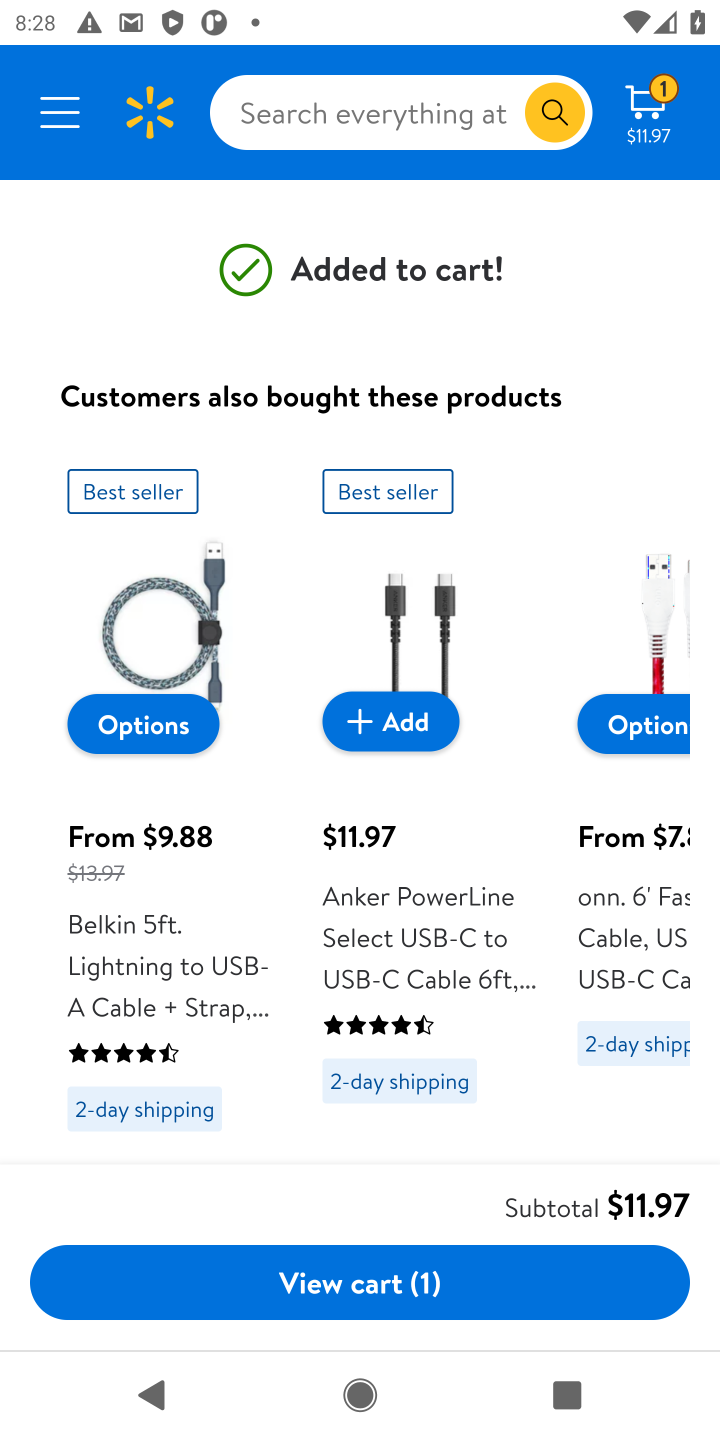
Step 30: click (344, 1294)
Your task to perform on an android device: Search for "usb-c" on walmart.com, select the first entry, add it to the cart, then select checkout. Image 31: 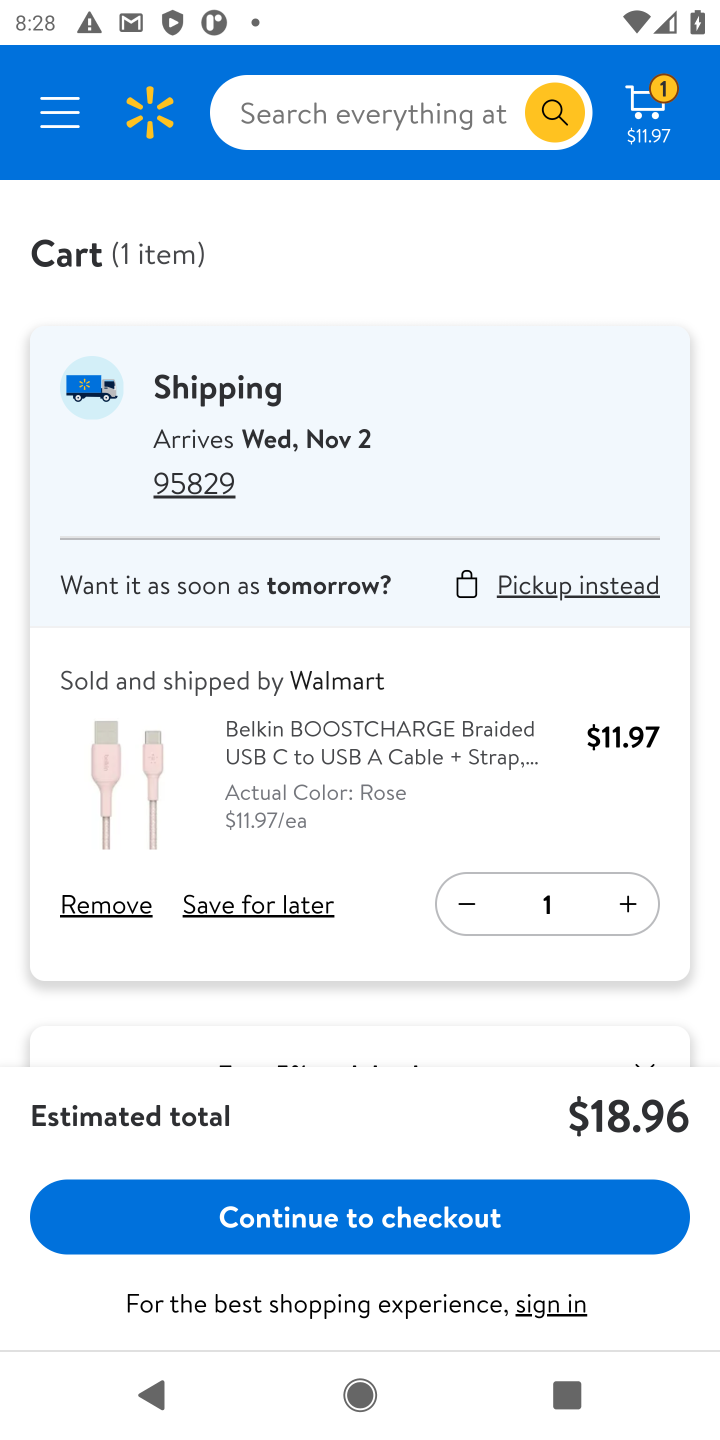
Step 31: drag from (335, 1077) to (389, 813)
Your task to perform on an android device: Search for "usb-c" on walmart.com, select the first entry, add it to the cart, then select checkout. Image 32: 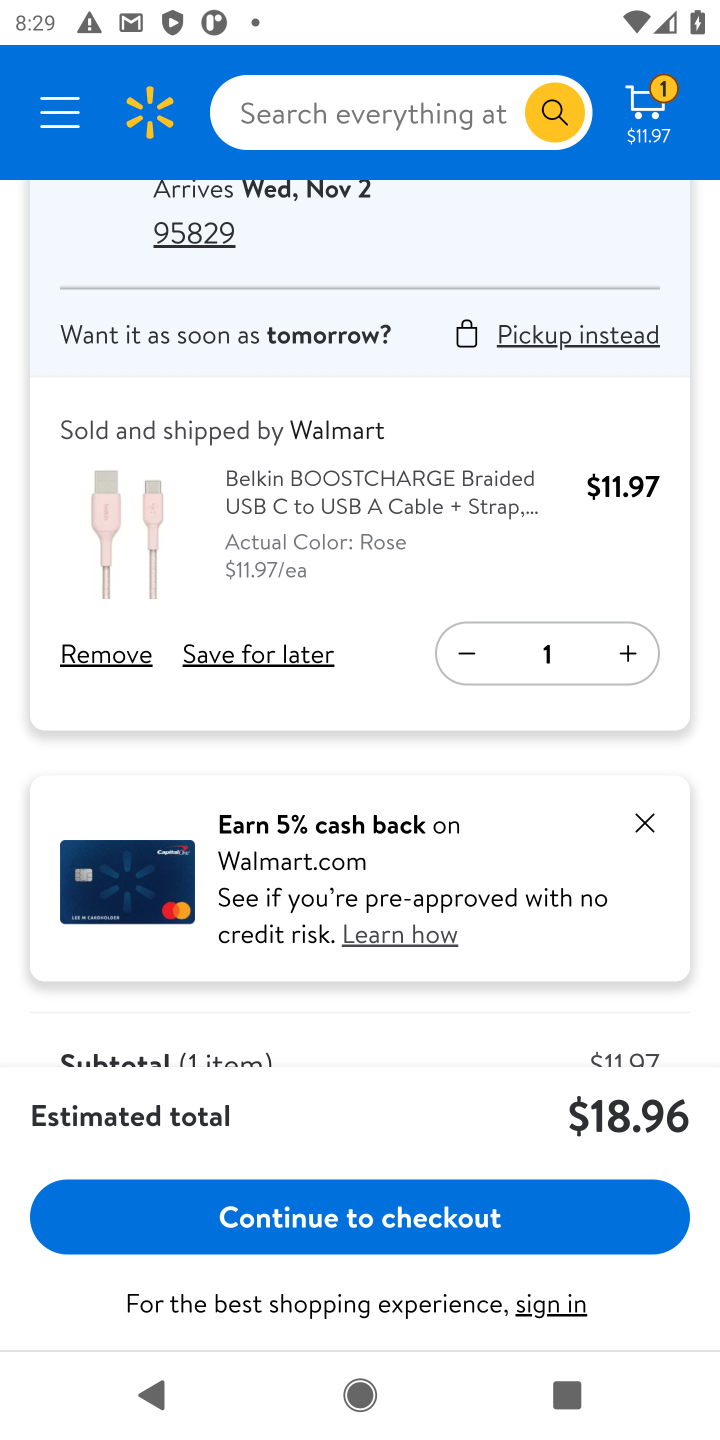
Step 32: click (643, 827)
Your task to perform on an android device: Search for "usb-c" on walmart.com, select the first entry, add it to the cart, then select checkout. Image 33: 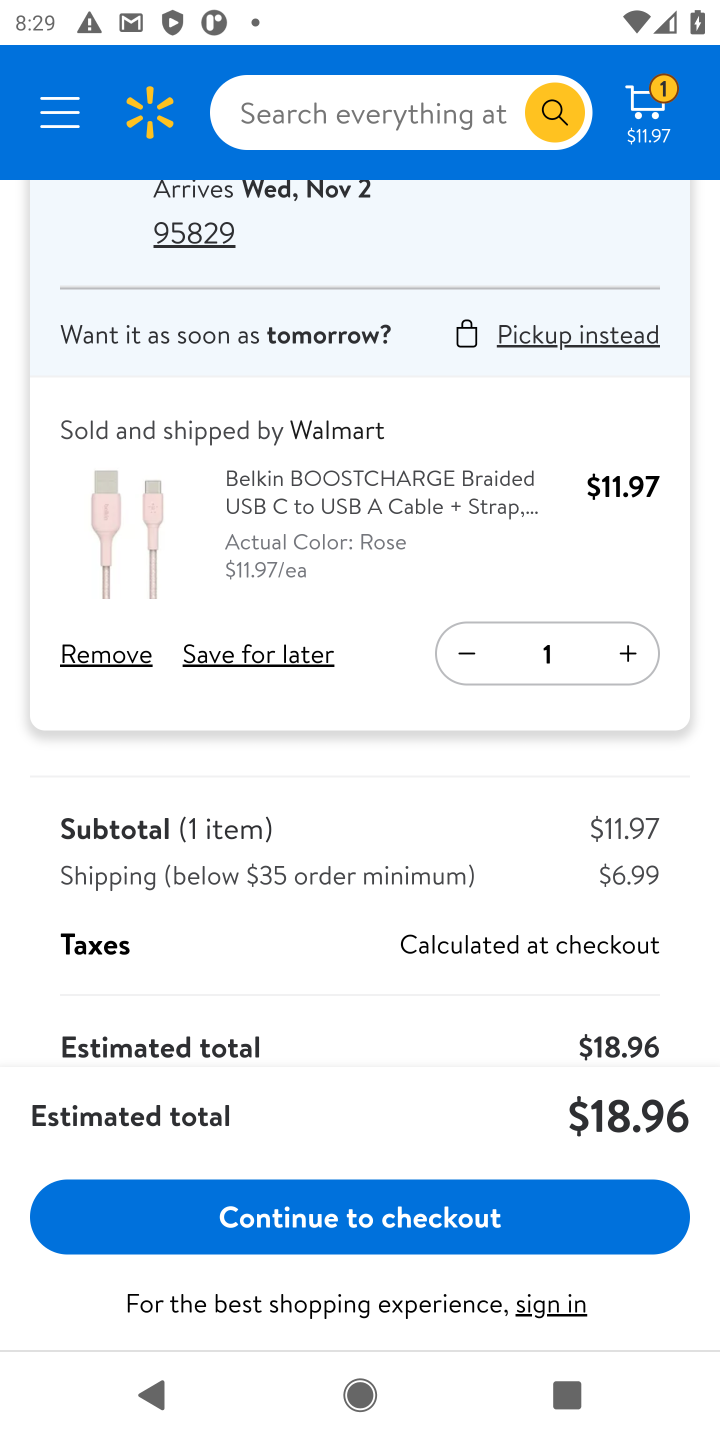
Step 33: drag from (374, 980) to (418, 811)
Your task to perform on an android device: Search for "usb-c" on walmart.com, select the first entry, add it to the cart, then select checkout. Image 34: 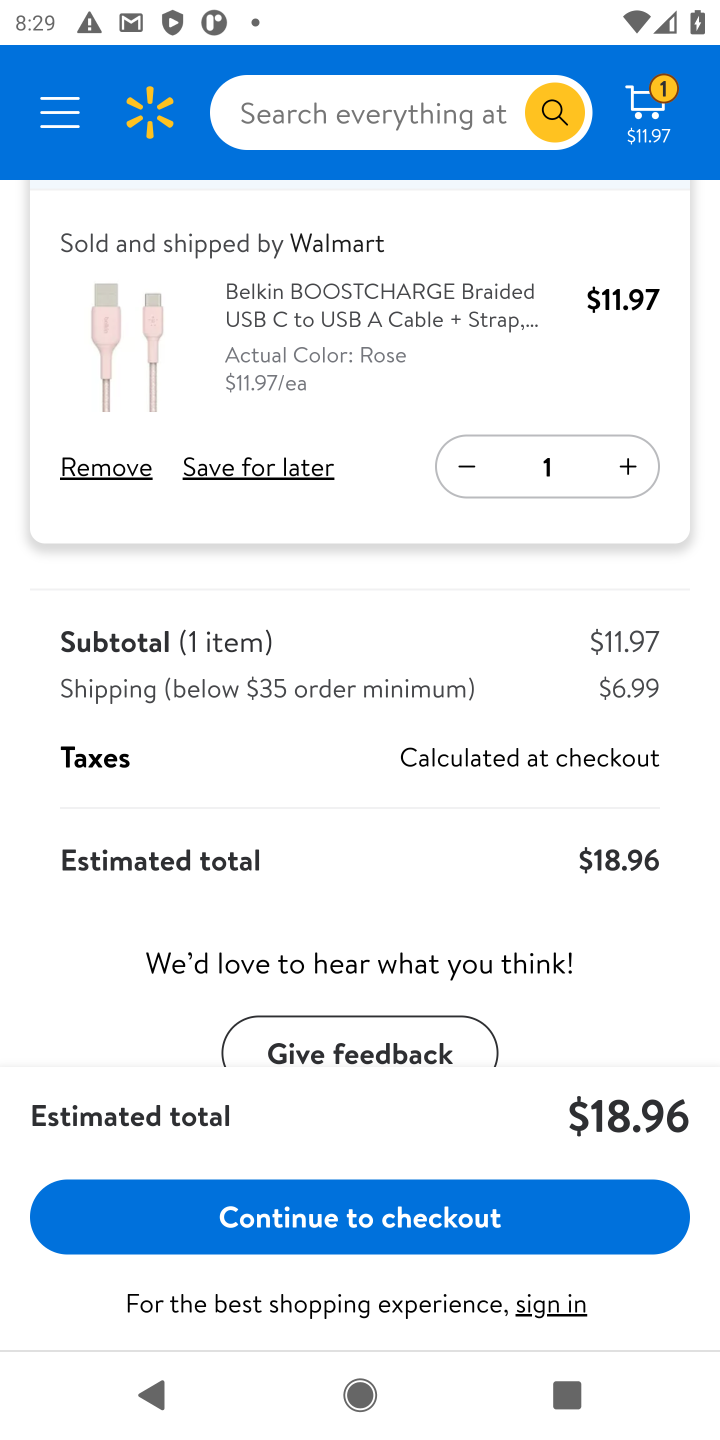
Step 34: click (422, 1227)
Your task to perform on an android device: Search for "usb-c" on walmart.com, select the first entry, add it to the cart, then select checkout. Image 35: 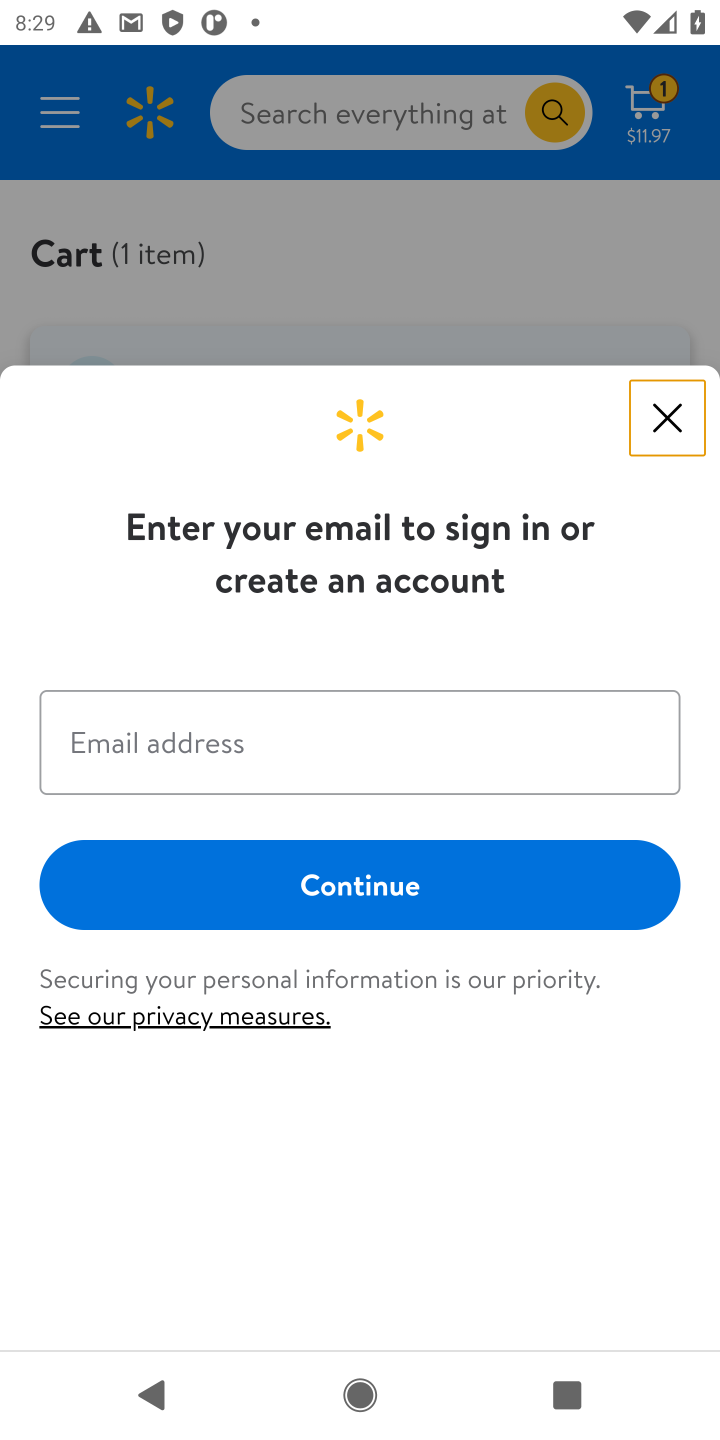
Step 35: task complete